Your task to perform on an android device: View the shopping cart on walmart. Search for jbl charge 4 on walmart, select the first entry, add it to the cart, then select checkout. Image 0: 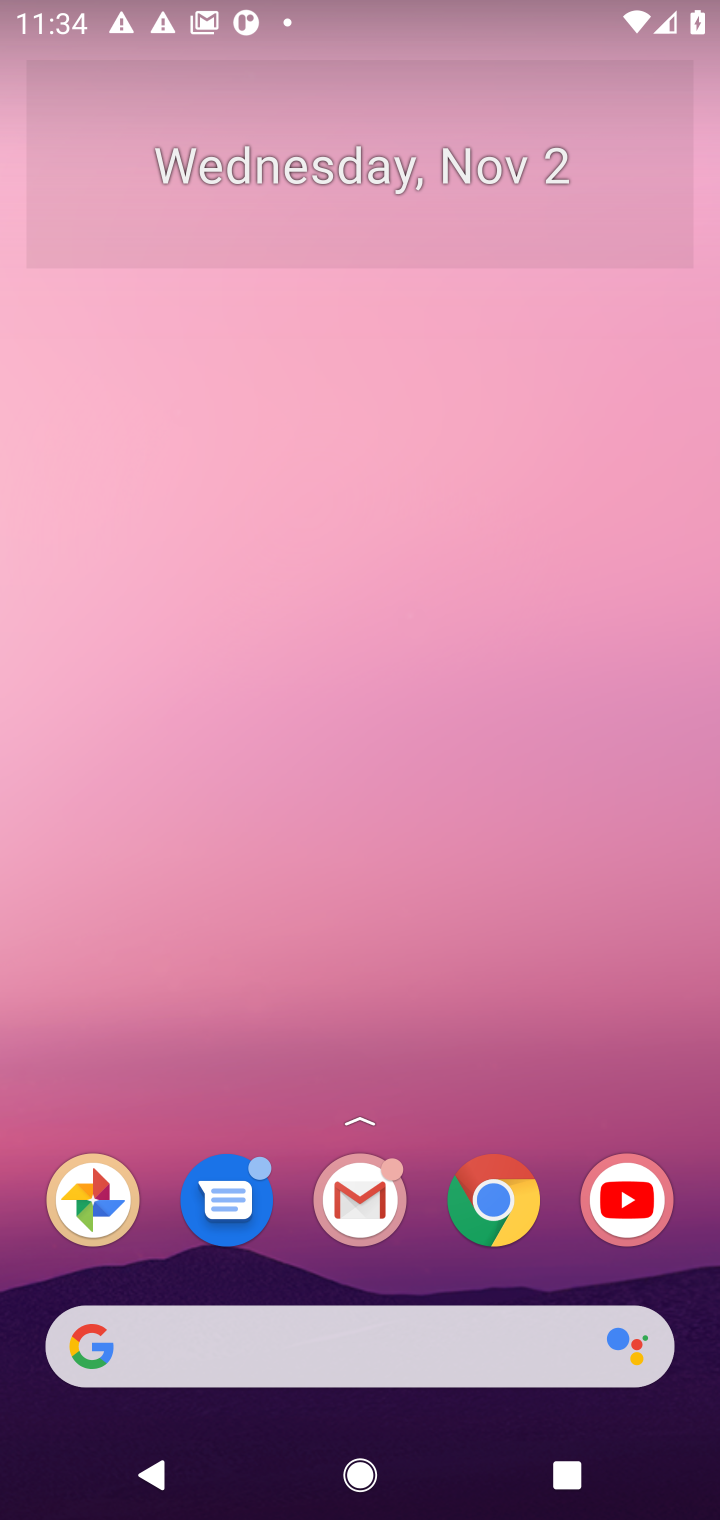
Step 0: click (513, 1198)
Your task to perform on an android device: View the shopping cart on walmart. Search for jbl charge 4 on walmart, select the first entry, add it to the cart, then select checkout. Image 1: 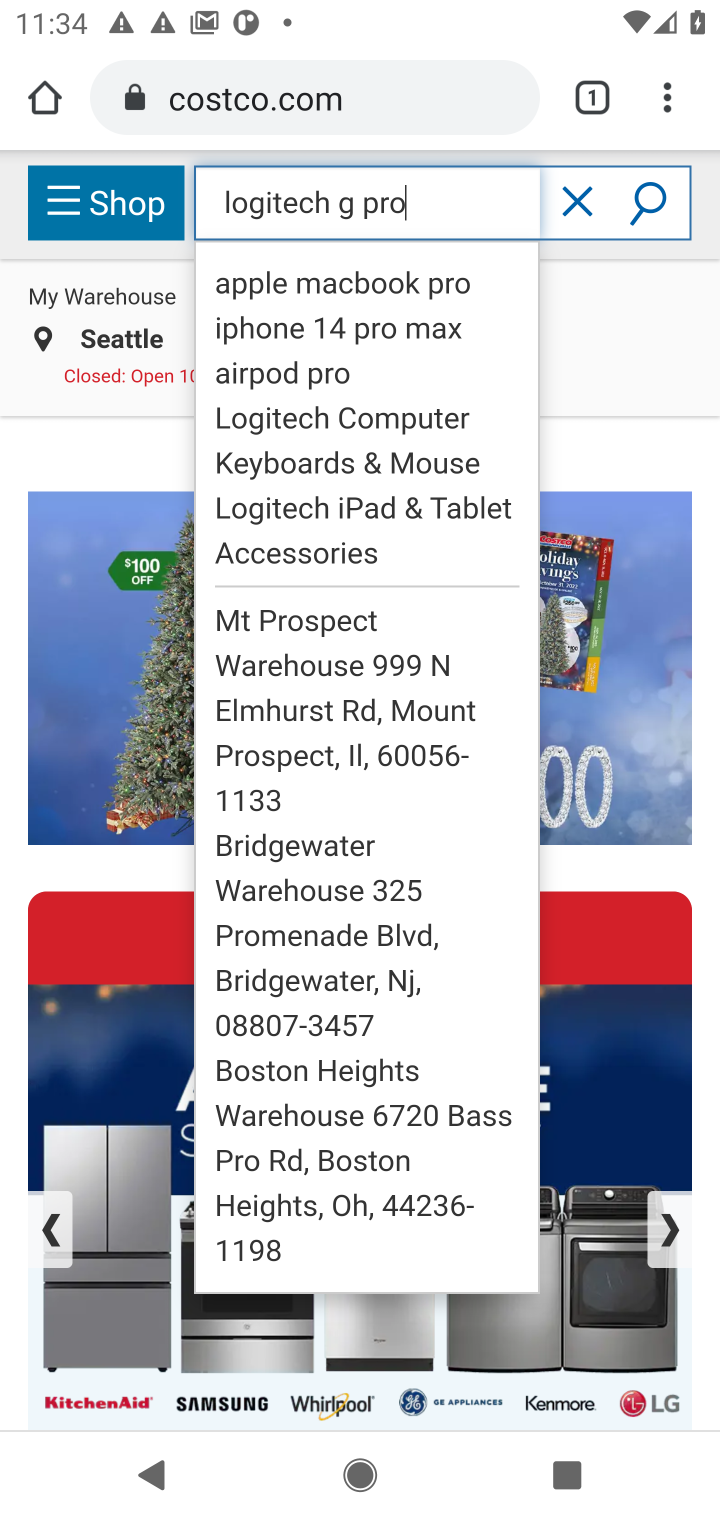
Step 1: click (459, 105)
Your task to perform on an android device: View the shopping cart on walmart. Search for jbl charge 4 on walmart, select the first entry, add it to the cart, then select checkout. Image 2: 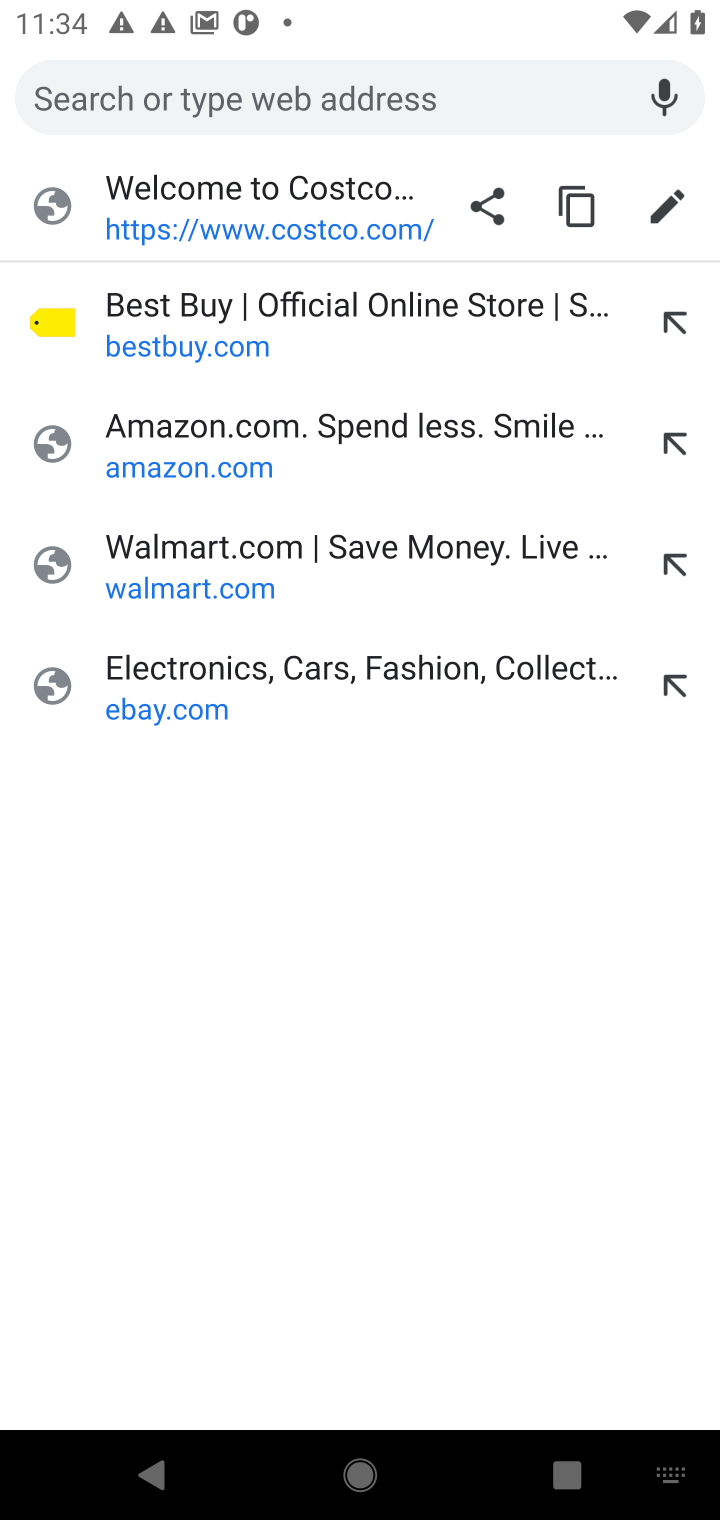
Step 2: click (480, 74)
Your task to perform on an android device: View the shopping cart on walmart. Search for jbl charge 4 on walmart, select the first entry, add it to the cart, then select checkout. Image 3: 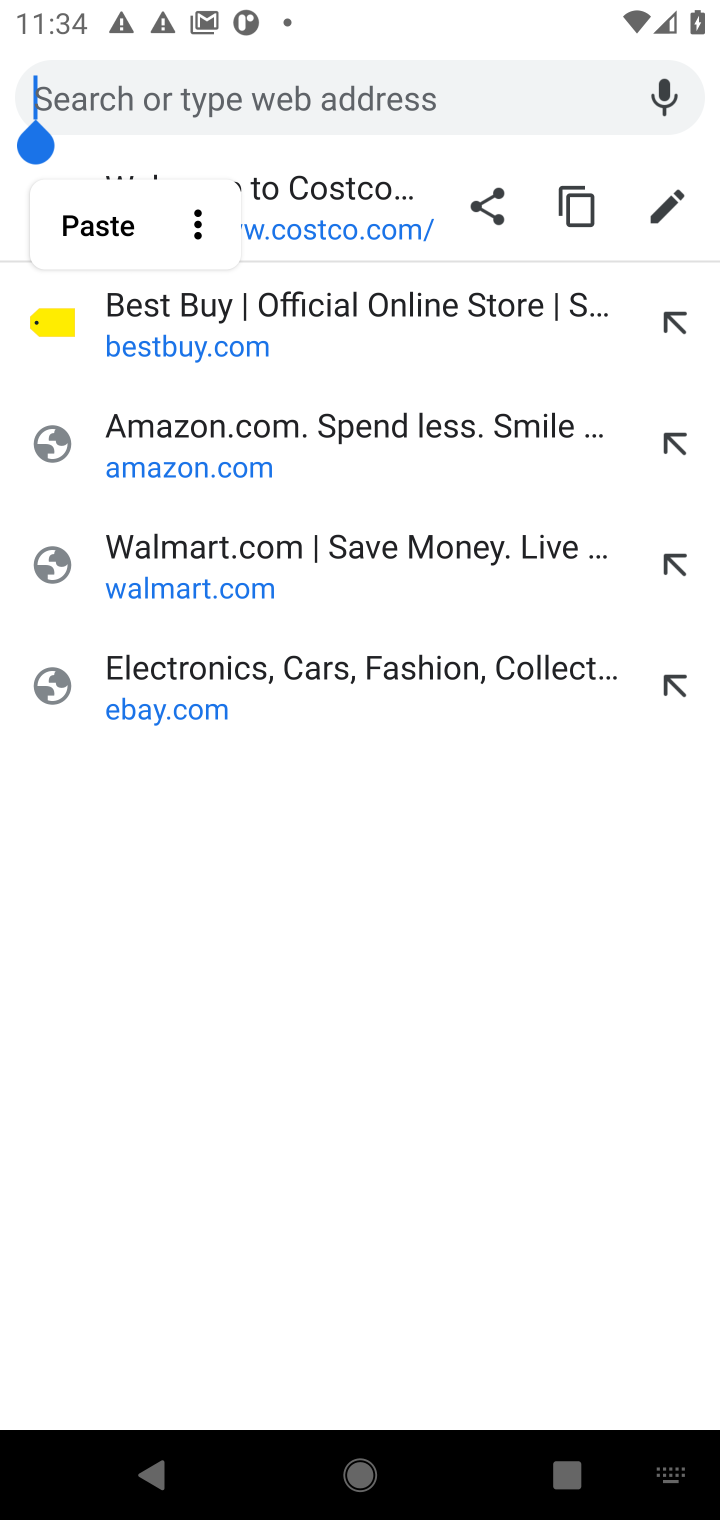
Step 3: click (227, 538)
Your task to perform on an android device: View the shopping cart on walmart. Search for jbl charge 4 on walmart, select the first entry, add it to the cart, then select checkout. Image 4: 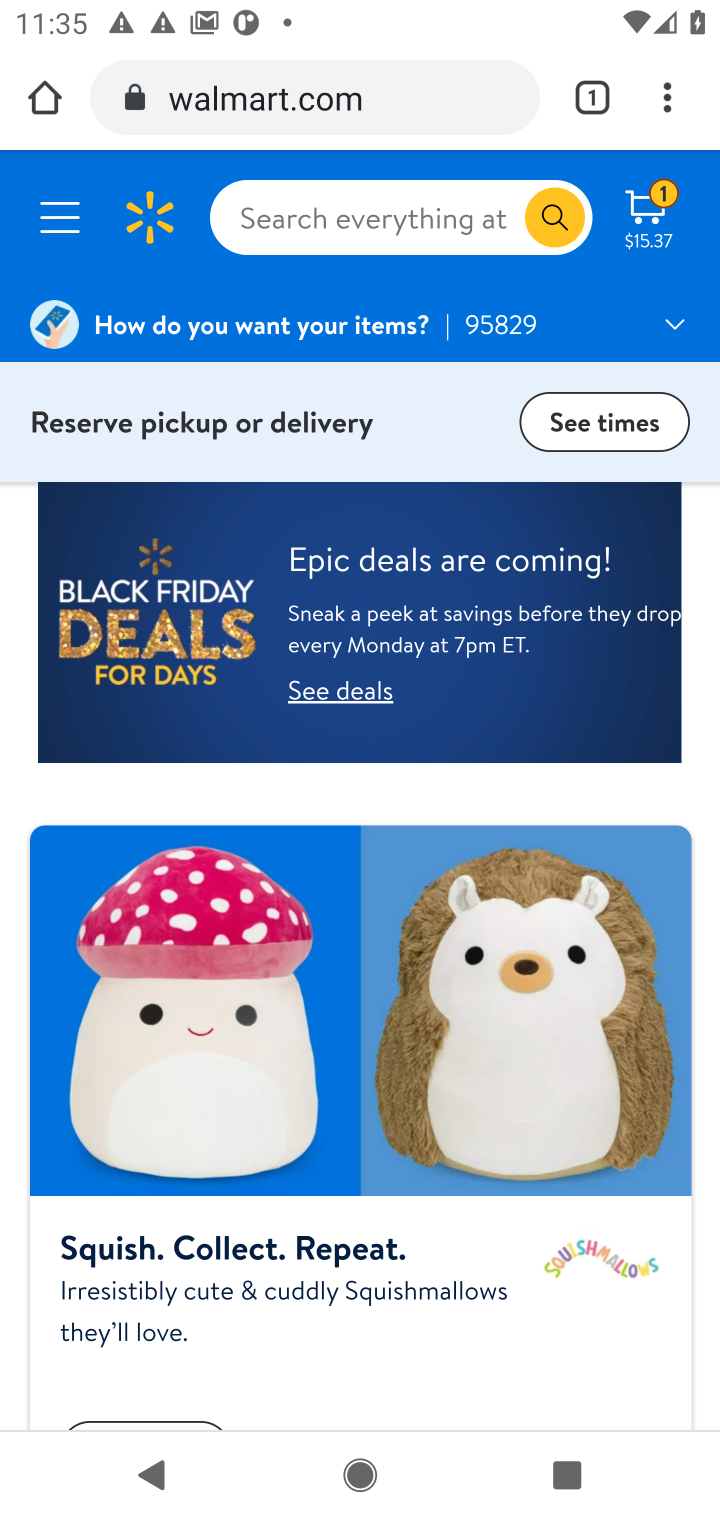
Step 4: click (342, 203)
Your task to perform on an android device: View the shopping cart on walmart. Search for jbl charge 4 on walmart, select the first entry, add it to the cart, then select checkout. Image 5: 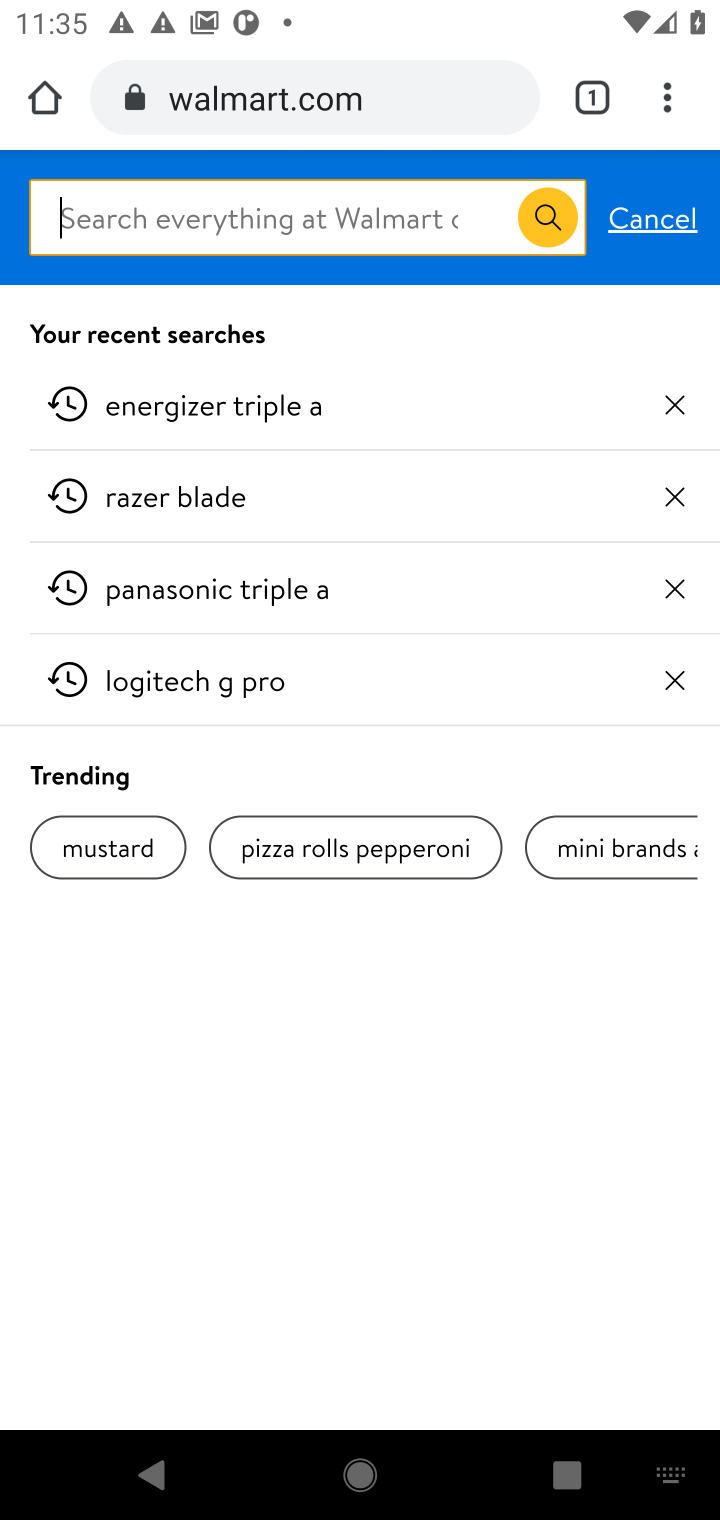
Step 5: type "walmart"
Your task to perform on an android device: View the shopping cart on walmart. Search for jbl charge 4 on walmart, select the first entry, add it to the cart, then select checkout. Image 6: 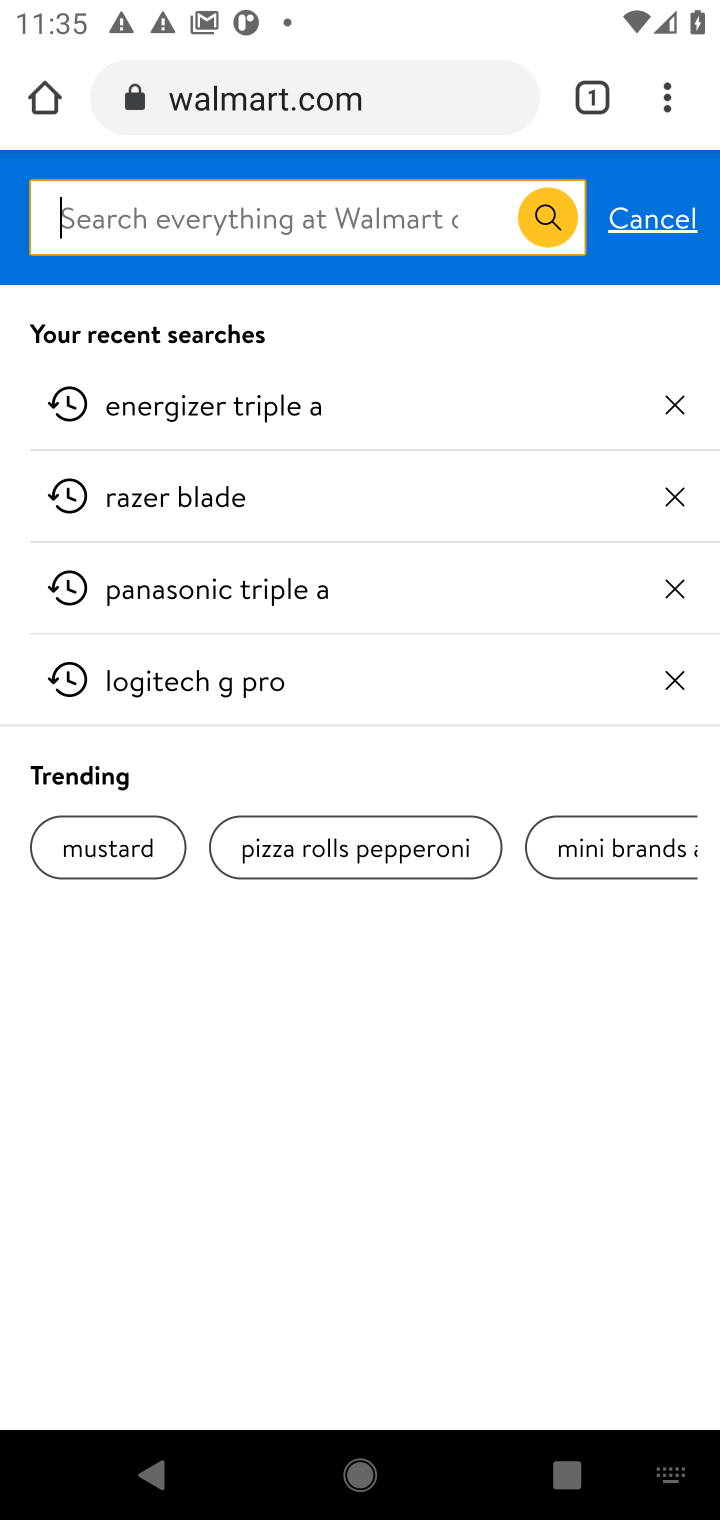
Step 6: click (666, 223)
Your task to perform on an android device: View the shopping cart on walmart. Search for jbl charge 4 on walmart, select the first entry, add it to the cart, then select checkout. Image 7: 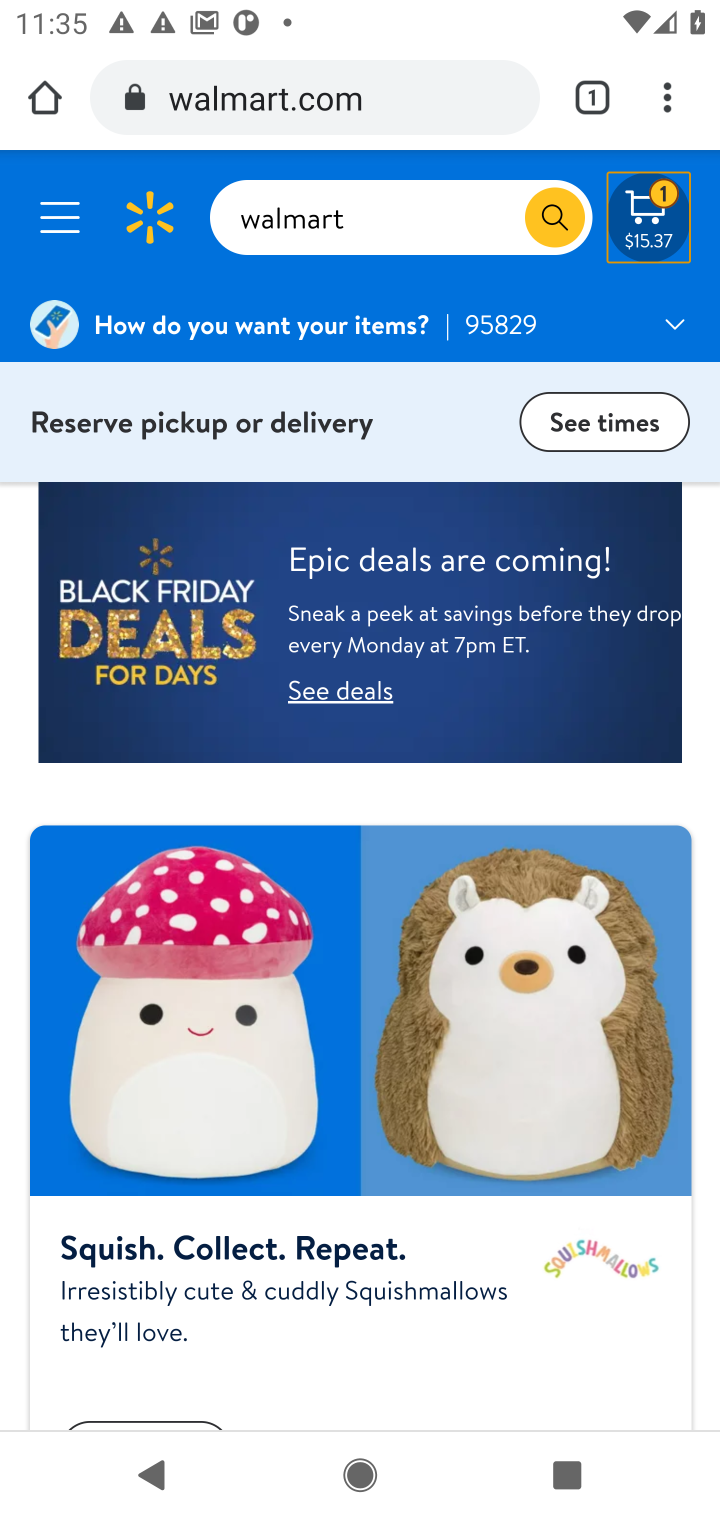
Step 7: click (666, 223)
Your task to perform on an android device: View the shopping cart on walmart. Search for jbl charge 4 on walmart, select the first entry, add it to the cart, then select checkout. Image 8: 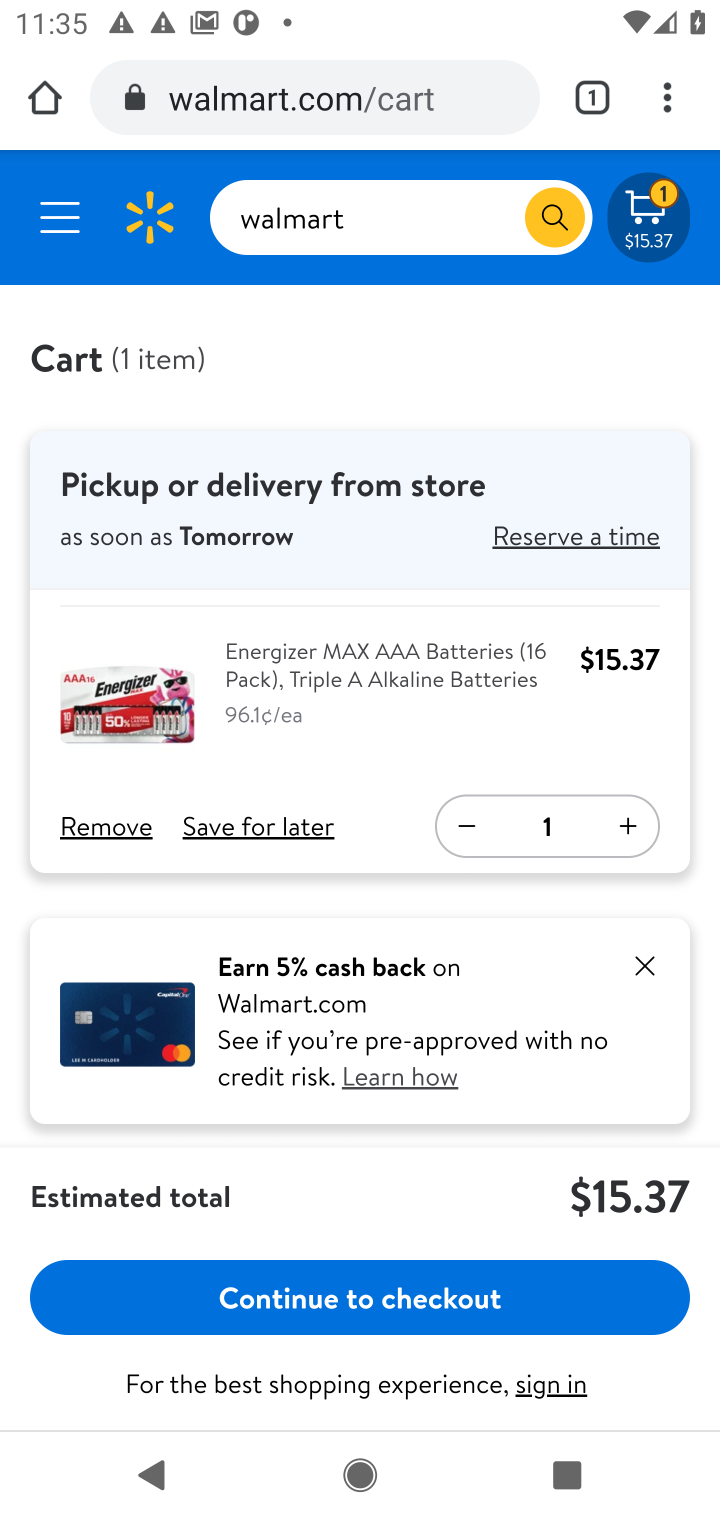
Step 8: click (540, 216)
Your task to perform on an android device: View the shopping cart on walmart. Search for jbl charge 4 on walmart, select the first entry, add it to the cart, then select checkout. Image 9: 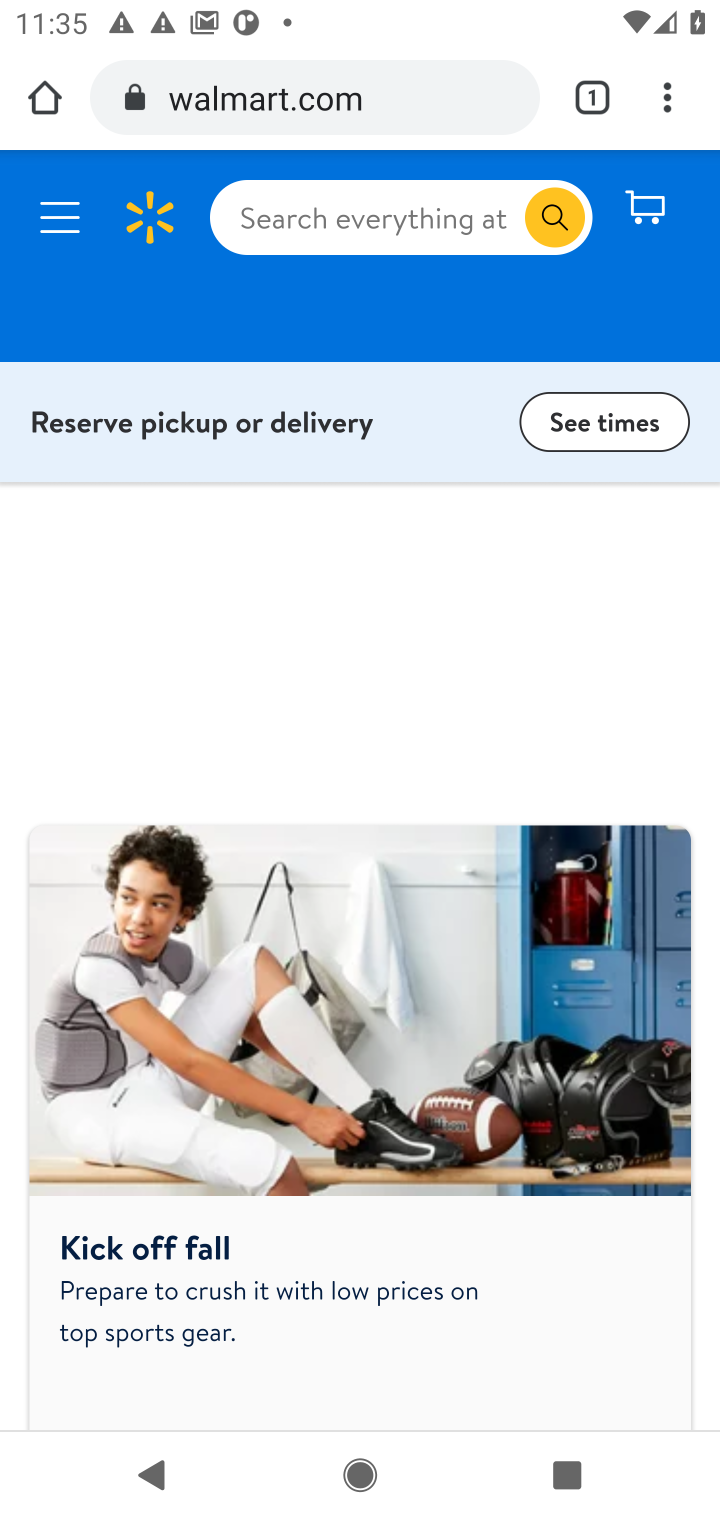
Step 9: click (386, 215)
Your task to perform on an android device: View the shopping cart on walmart. Search for jbl charge 4 on walmart, select the first entry, add it to the cart, then select checkout. Image 10: 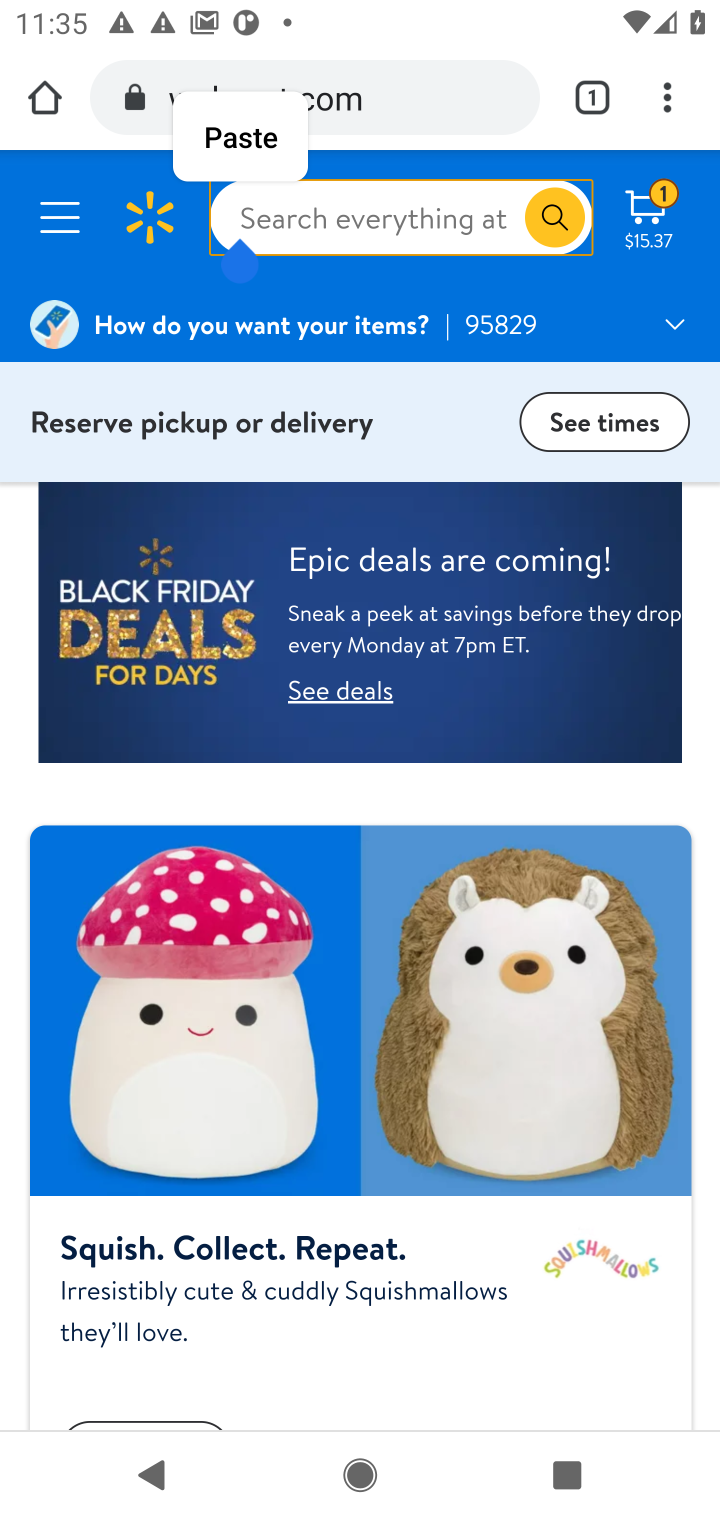
Step 10: press enter
Your task to perform on an android device: View the shopping cart on walmart. Search for jbl charge 4 on walmart, select the first entry, add it to the cart, then select checkout. Image 11: 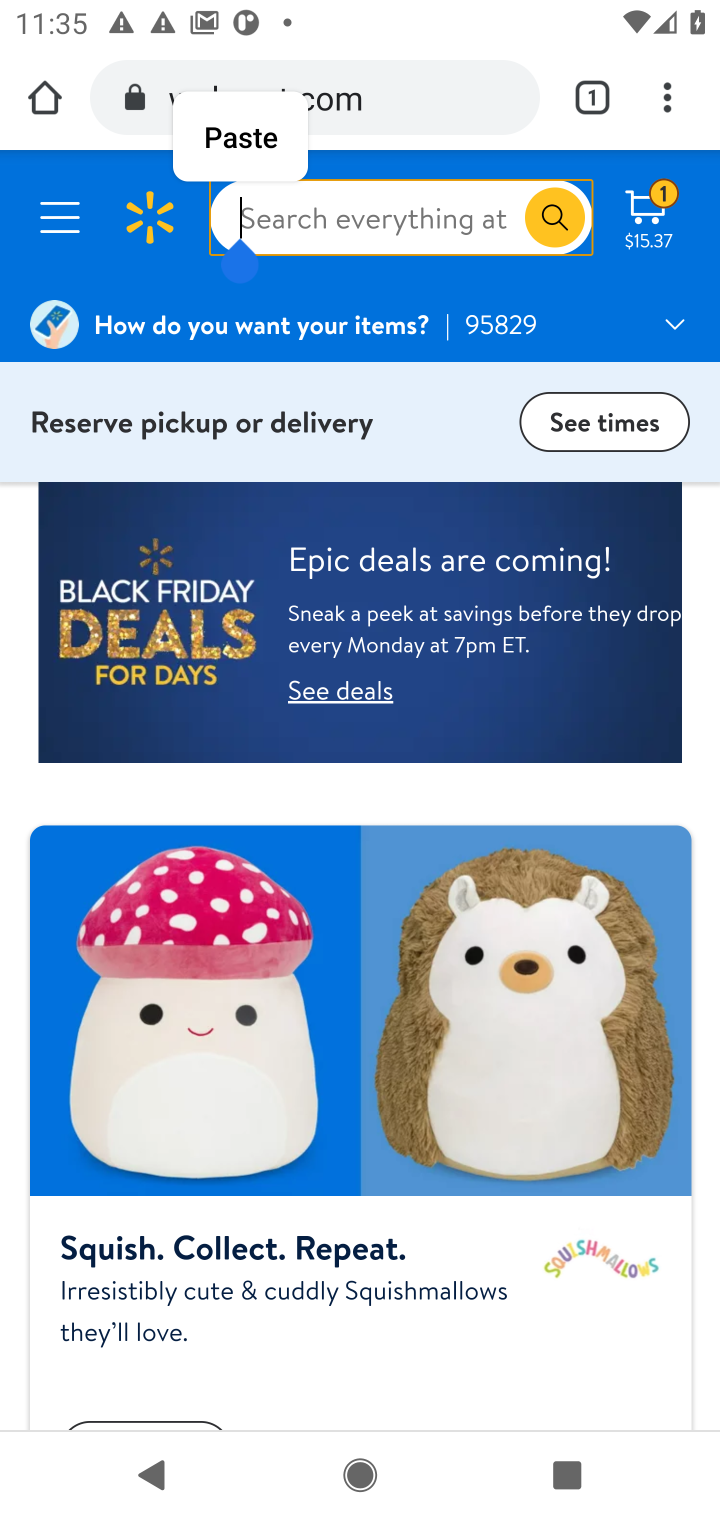
Step 11: type "jbl charge 4"
Your task to perform on an android device: View the shopping cart on walmart. Search for jbl charge 4 on walmart, select the first entry, add it to the cart, then select checkout. Image 12: 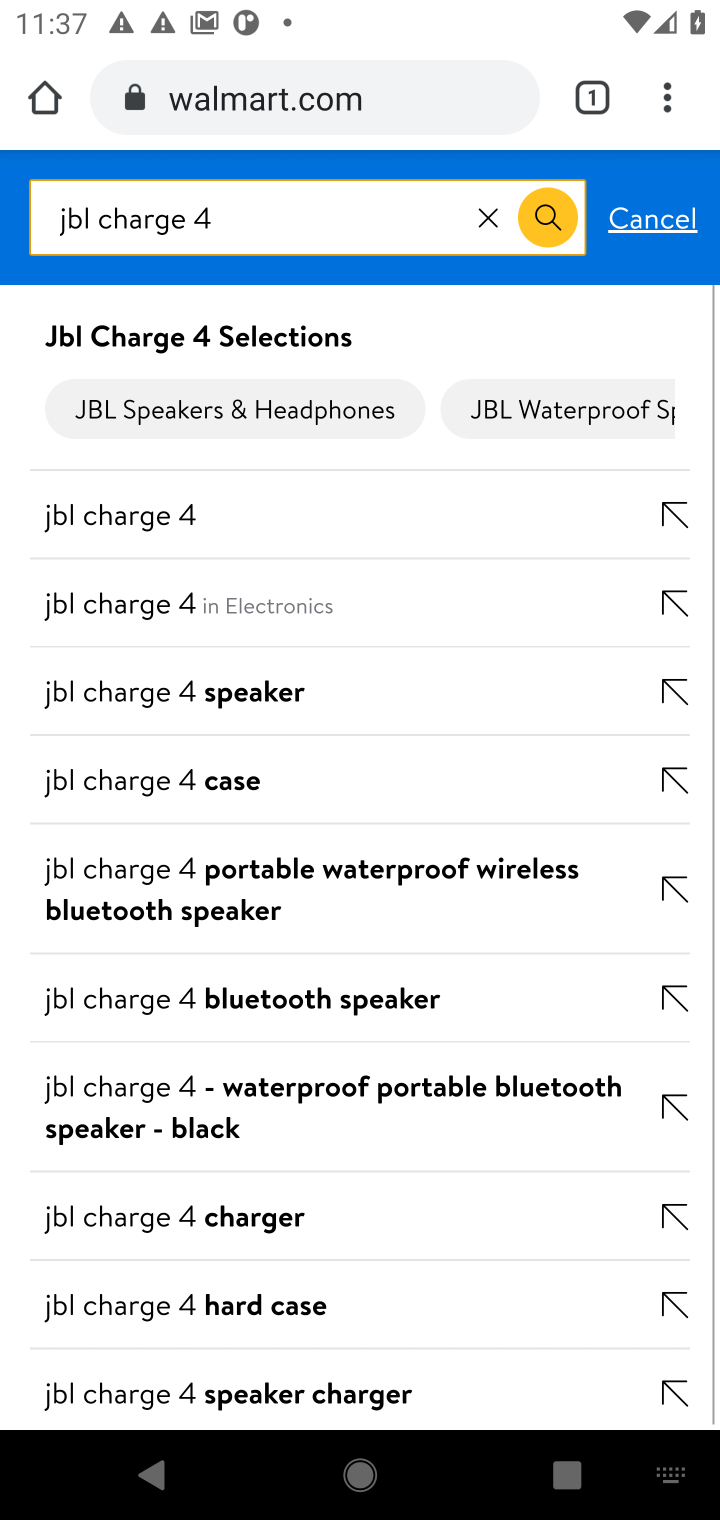
Step 12: click (152, 516)
Your task to perform on an android device: View the shopping cart on walmart. Search for jbl charge 4 on walmart, select the first entry, add it to the cart, then select checkout. Image 13: 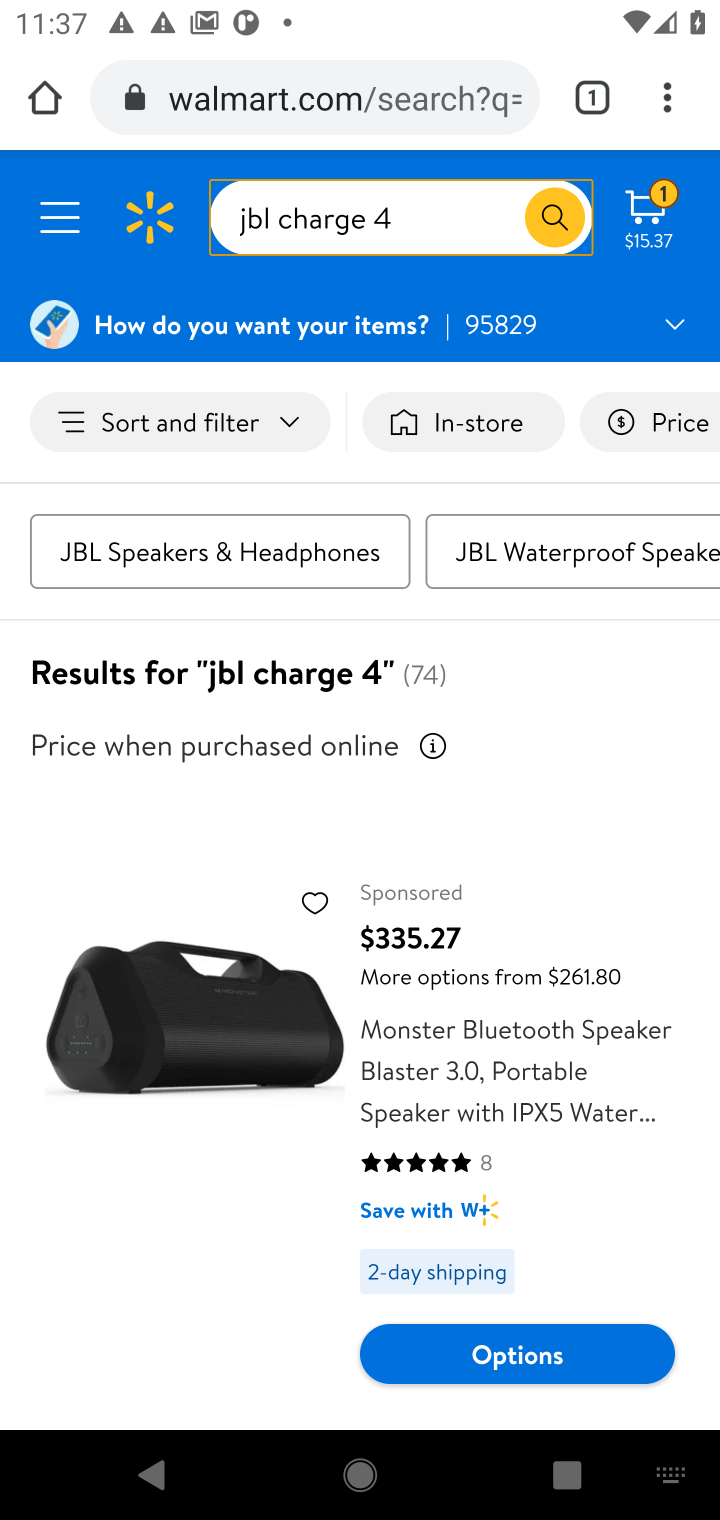
Step 13: drag from (584, 1113) to (531, 903)
Your task to perform on an android device: View the shopping cart on walmart. Search for jbl charge 4 on walmart, select the first entry, add it to the cart, then select checkout. Image 14: 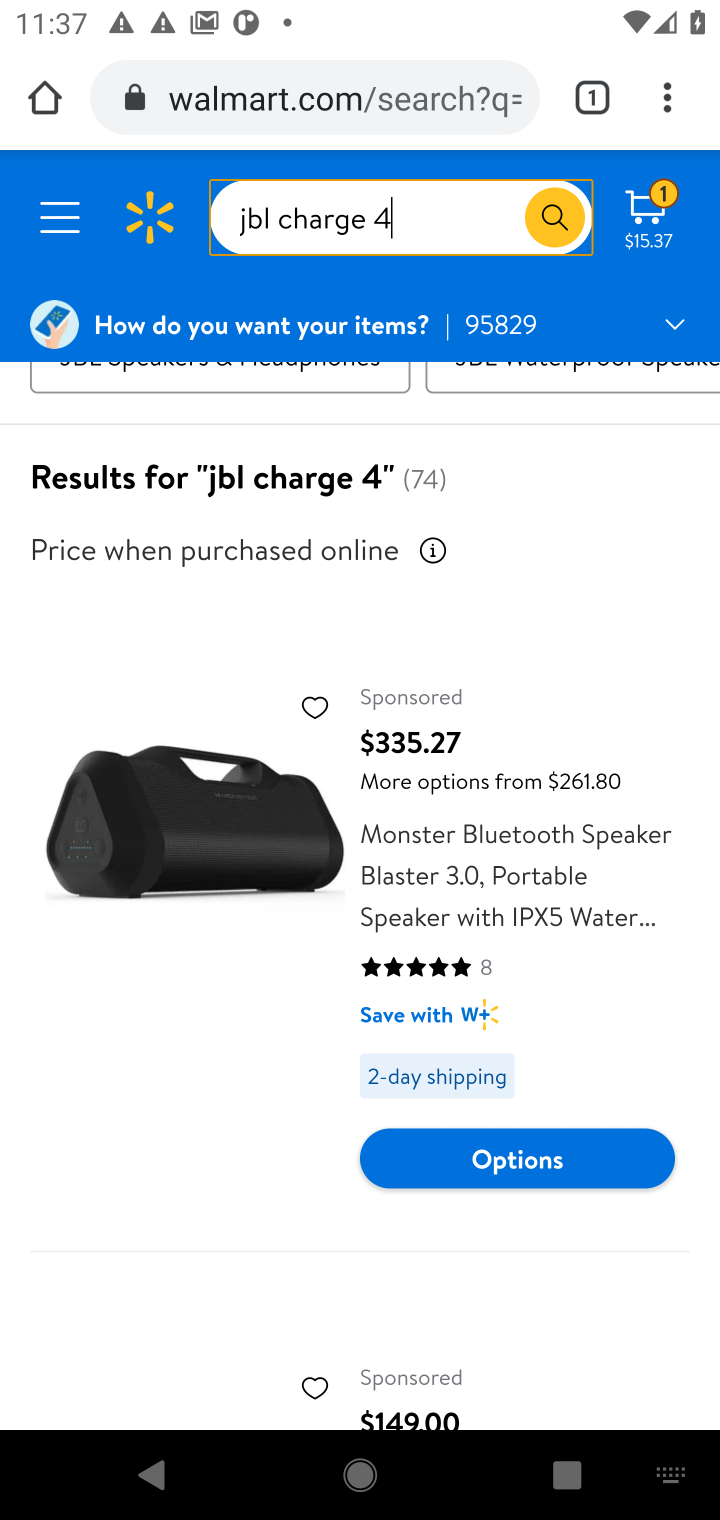
Step 14: drag from (560, 825) to (645, 1219)
Your task to perform on an android device: View the shopping cart on walmart. Search for jbl charge 4 on walmart, select the first entry, add it to the cart, then select checkout. Image 15: 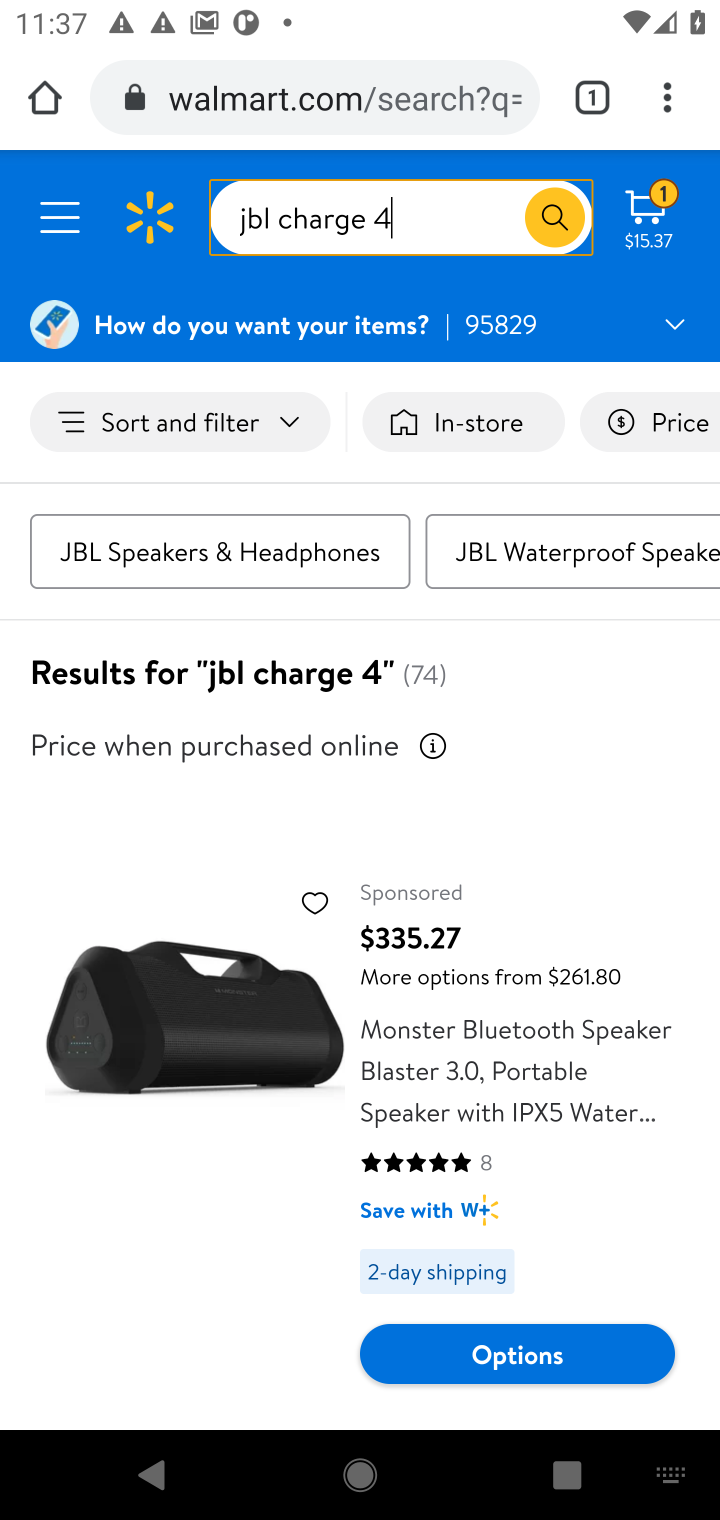
Step 15: drag from (573, 1078) to (545, 523)
Your task to perform on an android device: View the shopping cart on walmart. Search for jbl charge 4 on walmart, select the first entry, add it to the cart, then select checkout. Image 16: 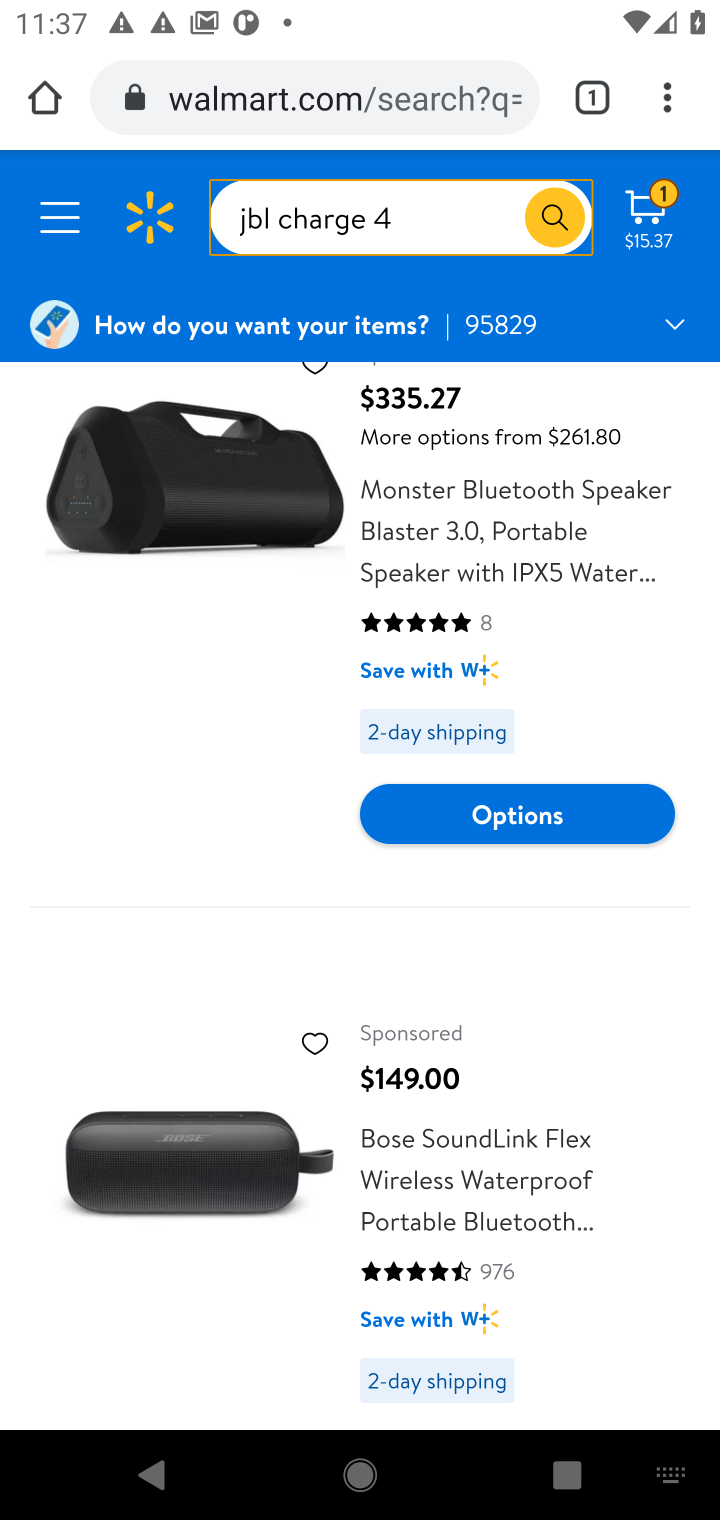
Step 16: drag from (573, 1246) to (519, 619)
Your task to perform on an android device: View the shopping cart on walmart. Search for jbl charge 4 on walmart, select the first entry, add it to the cart, then select checkout. Image 17: 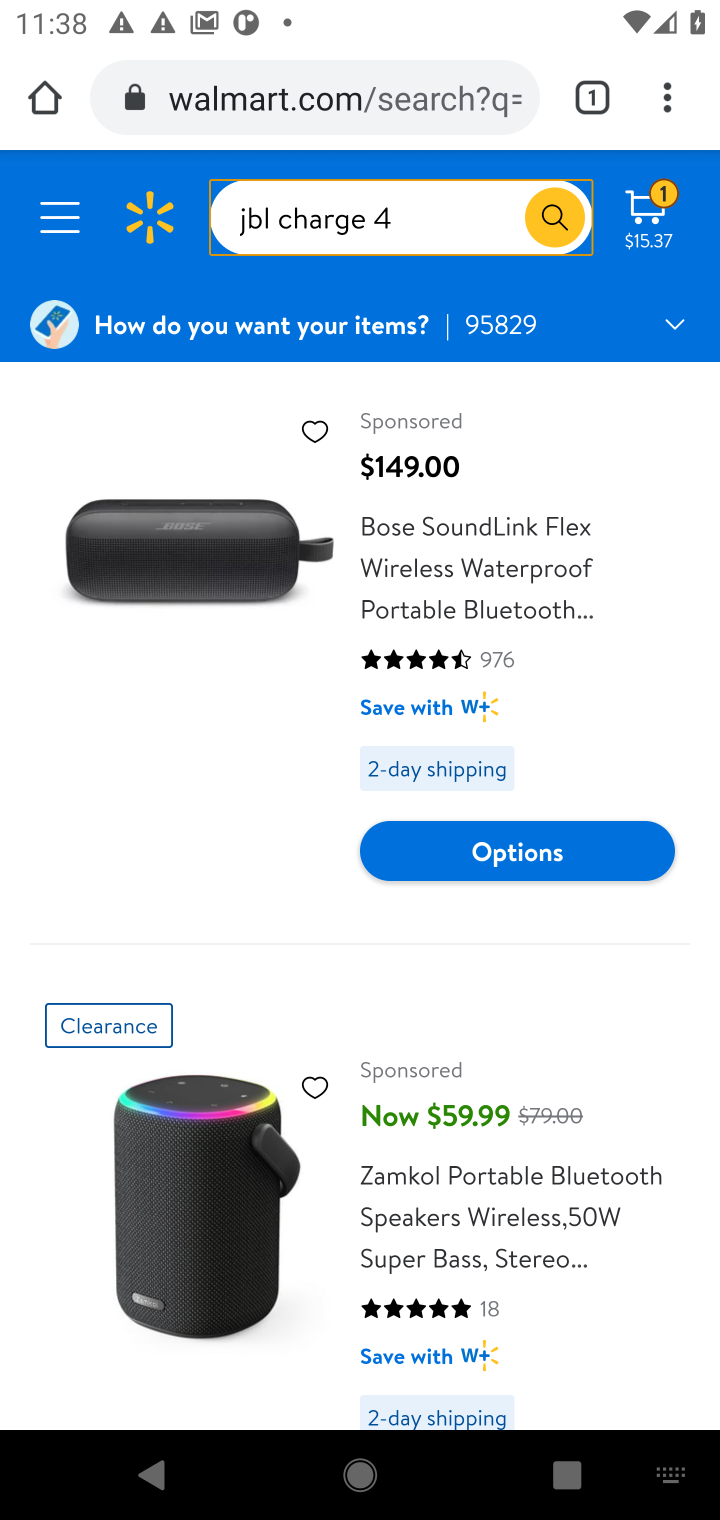
Step 17: drag from (615, 1320) to (647, 639)
Your task to perform on an android device: View the shopping cart on walmart. Search for jbl charge 4 on walmart, select the first entry, add it to the cart, then select checkout. Image 18: 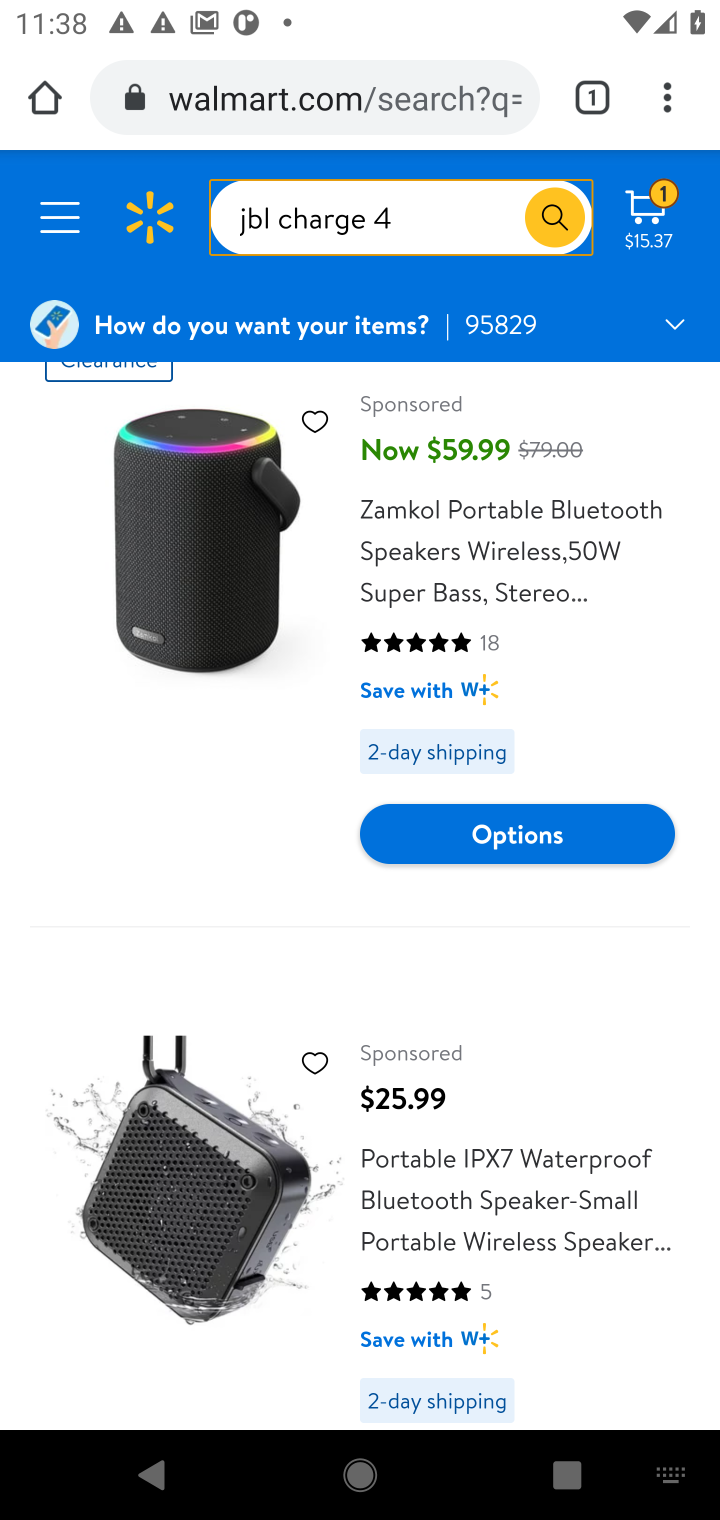
Step 18: drag from (581, 1150) to (567, 597)
Your task to perform on an android device: View the shopping cart on walmart. Search for jbl charge 4 on walmart, select the first entry, add it to the cart, then select checkout. Image 19: 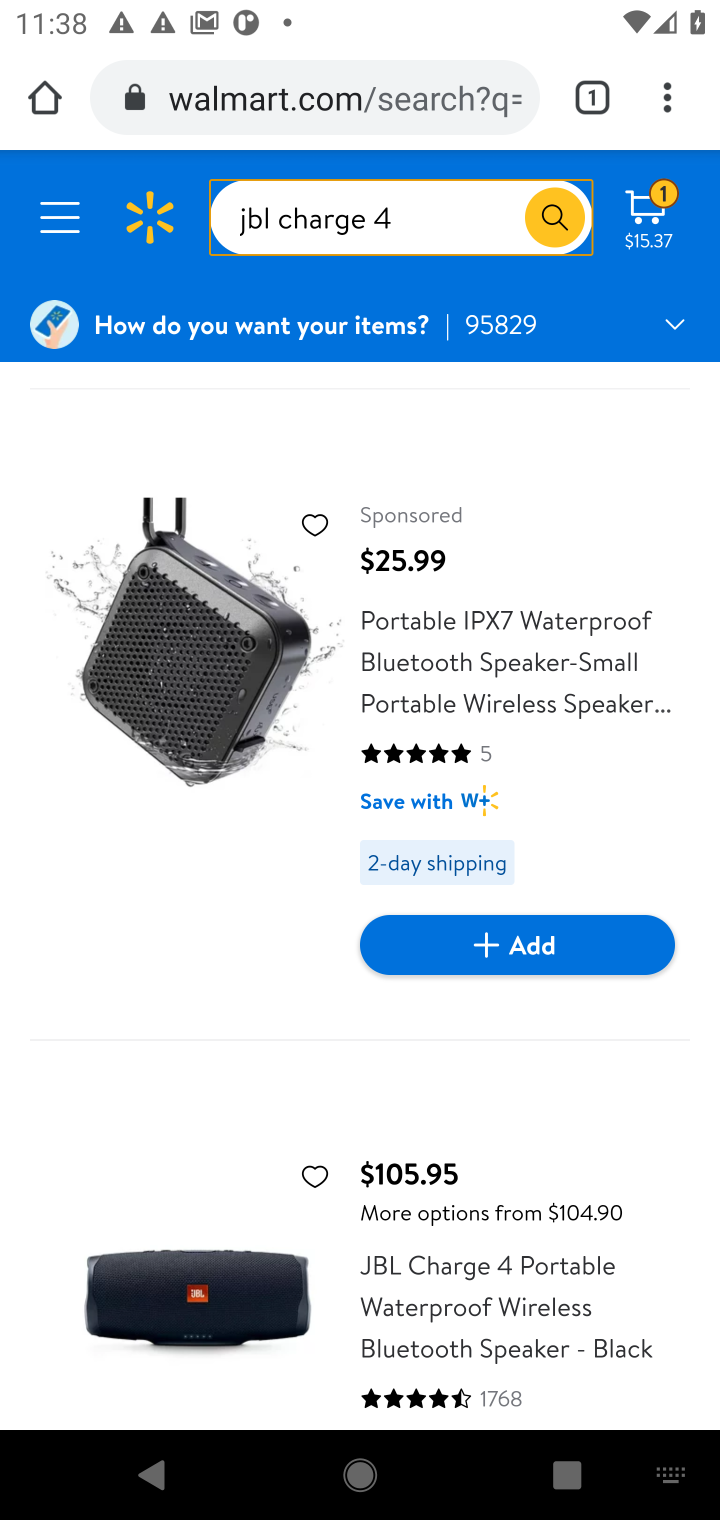
Step 19: click (268, 1259)
Your task to perform on an android device: View the shopping cart on walmart. Search for jbl charge 4 on walmart, select the first entry, add it to the cart, then select checkout. Image 20: 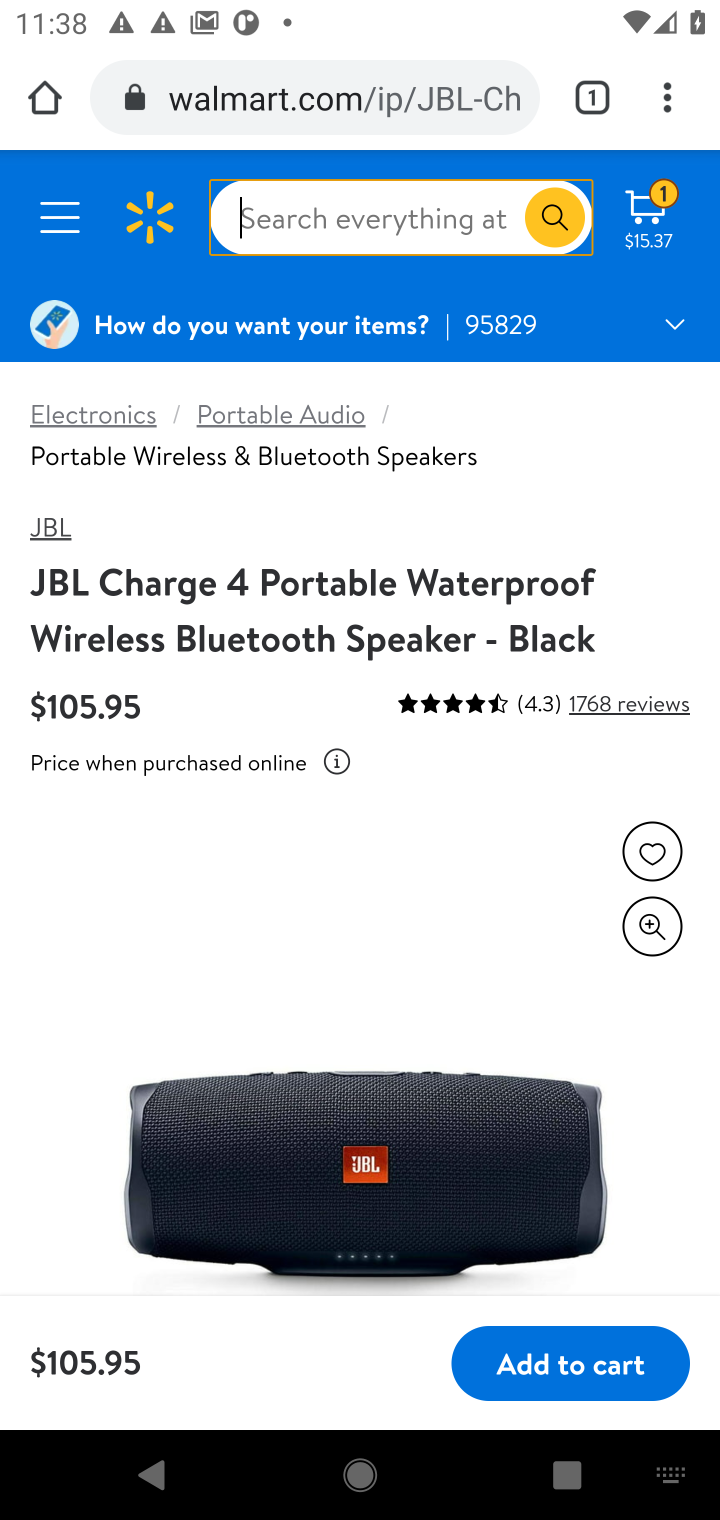
Step 20: drag from (512, 975) to (486, 816)
Your task to perform on an android device: View the shopping cart on walmart. Search for jbl charge 4 on walmart, select the first entry, add it to the cart, then select checkout. Image 21: 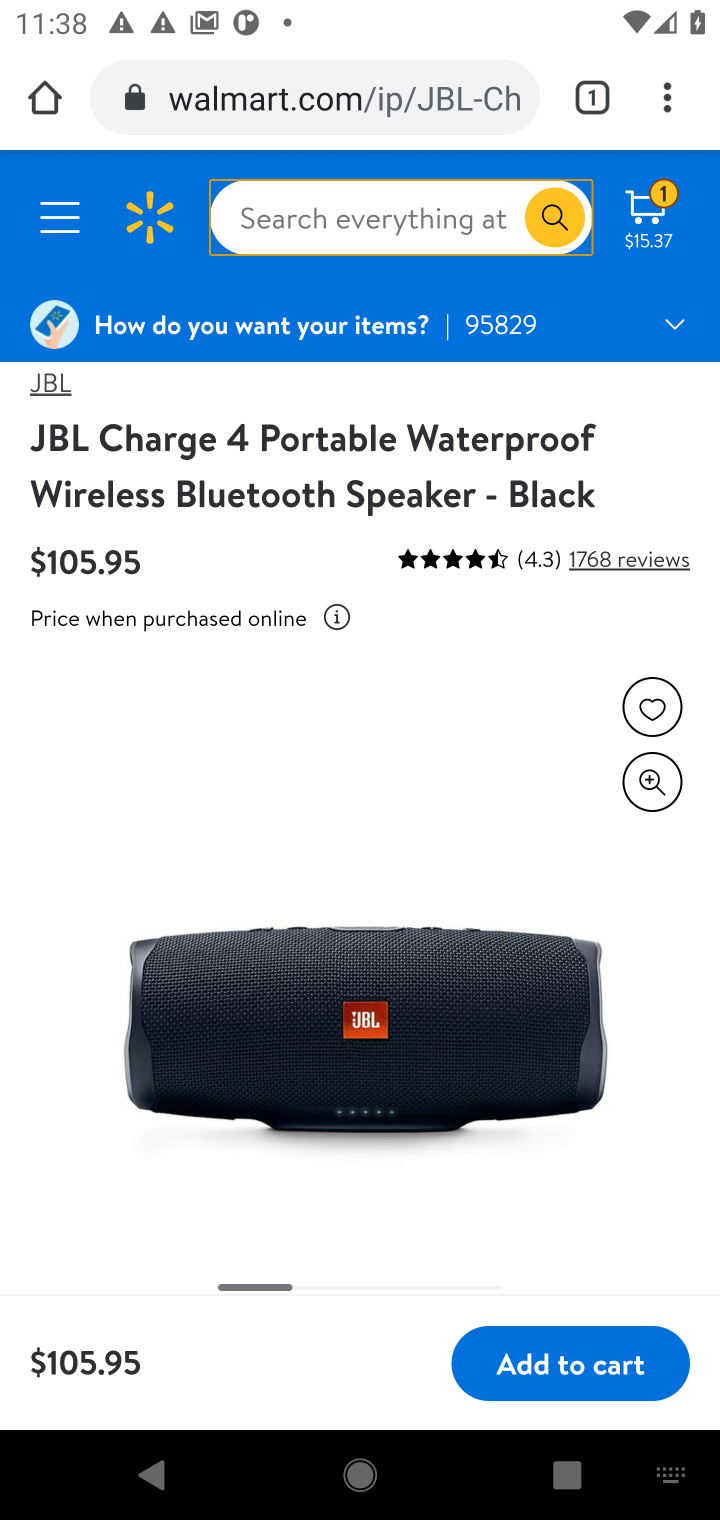
Step 21: click (601, 1358)
Your task to perform on an android device: View the shopping cart on walmart. Search for jbl charge 4 on walmart, select the first entry, add it to the cart, then select checkout. Image 22: 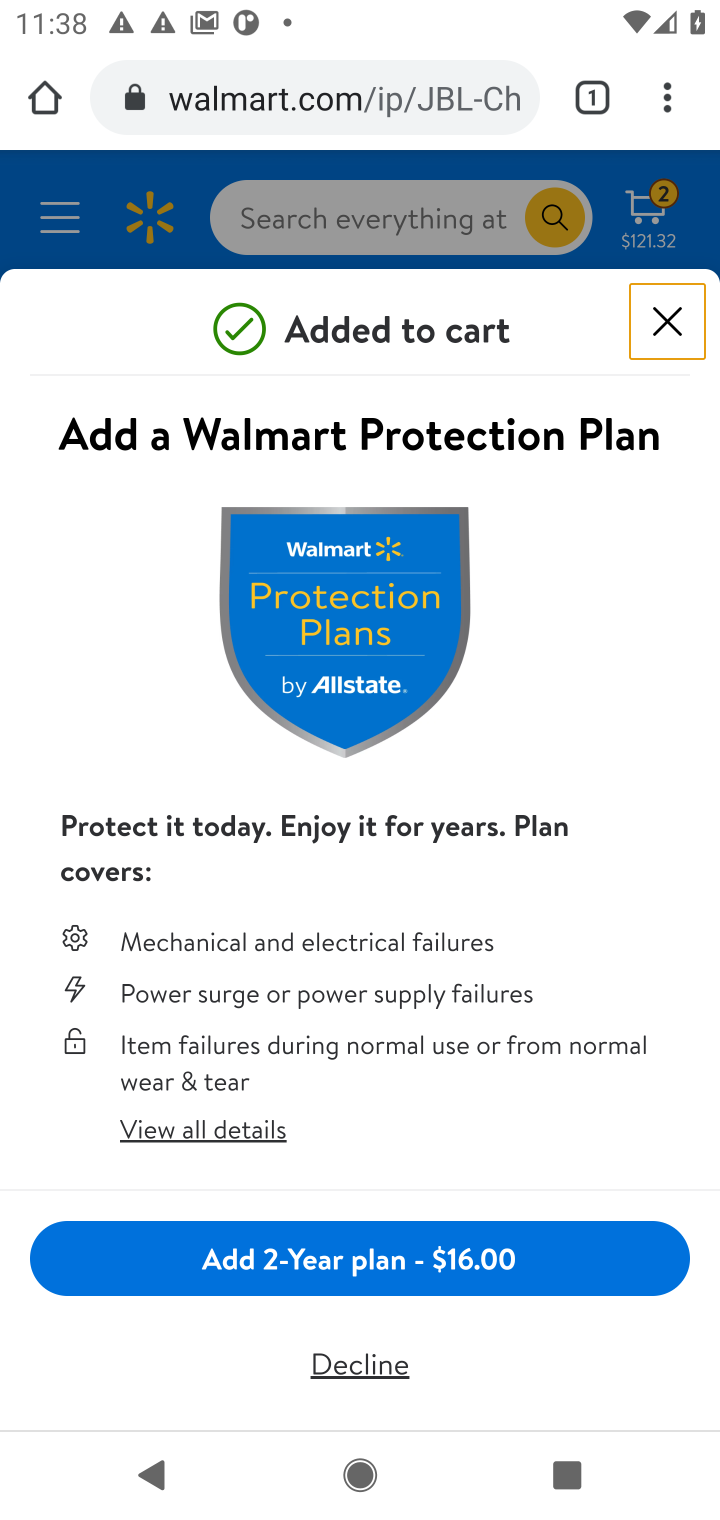
Step 22: click (661, 307)
Your task to perform on an android device: View the shopping cart on walmart. Search for jbl charge 4 on walmart, select the first entry, add it to the cart, then select checkout. Image 23: 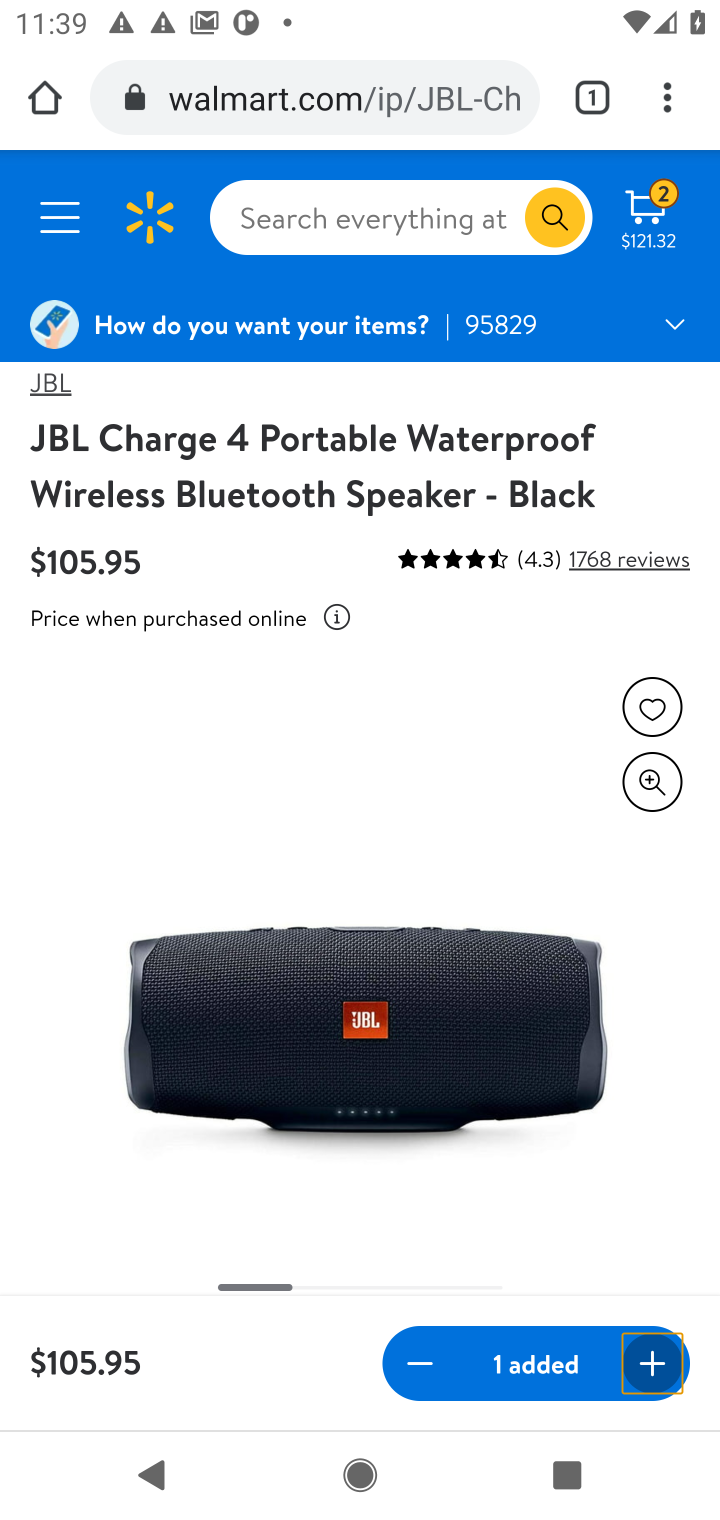
Step 23: drag from (456, 1166) to (510, 323)
Your task to perform on an android device: View the shopping cart on walmart. Search for jbl charge 4 on walmart, select the first entry, add it to the cart, then select checkout. Image 24: 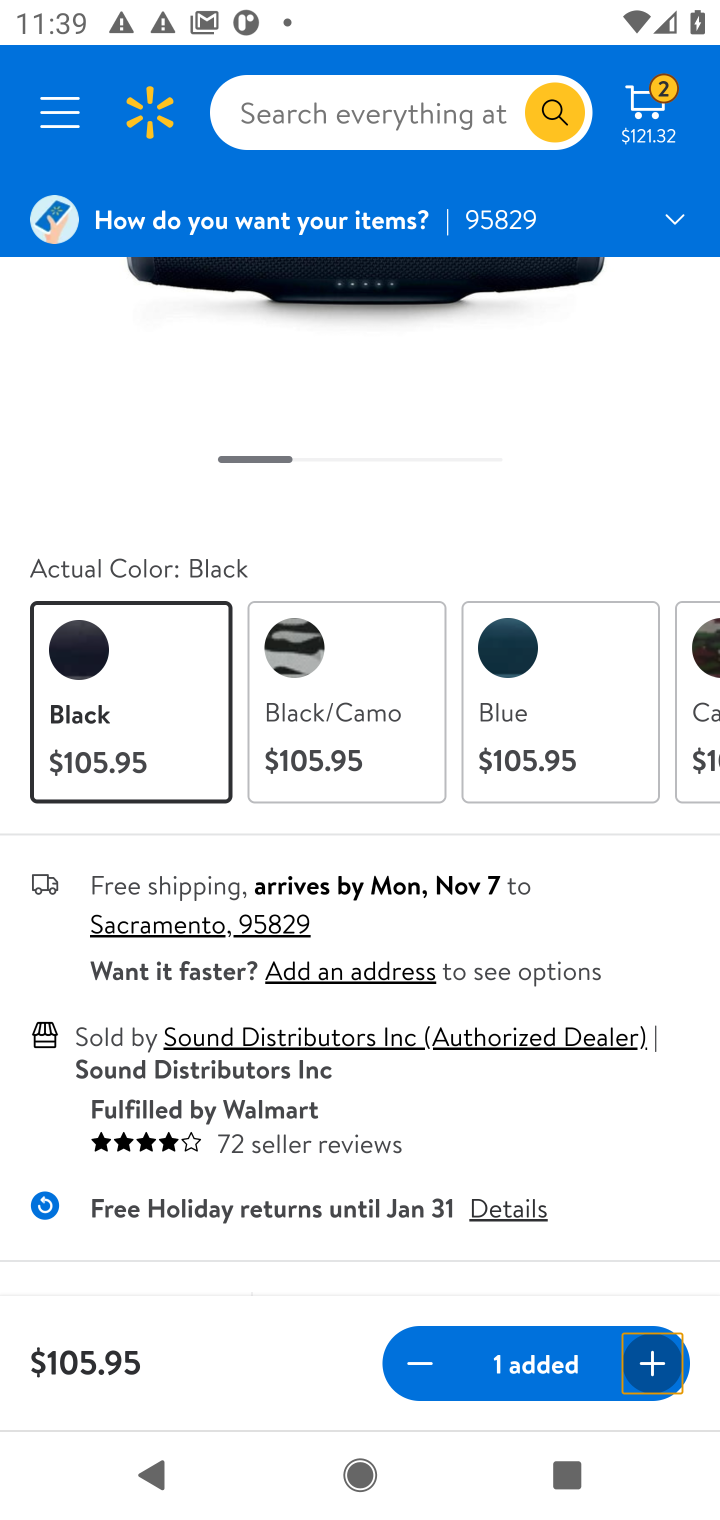
Step 24: drag from (550, 989) to (578, 429)
Your task to perform on an android device: View the shopping cart on walmart. Search for jbl charge 4 on walmart, select the first entry, add it to the cart, then select checkout. Image 25: 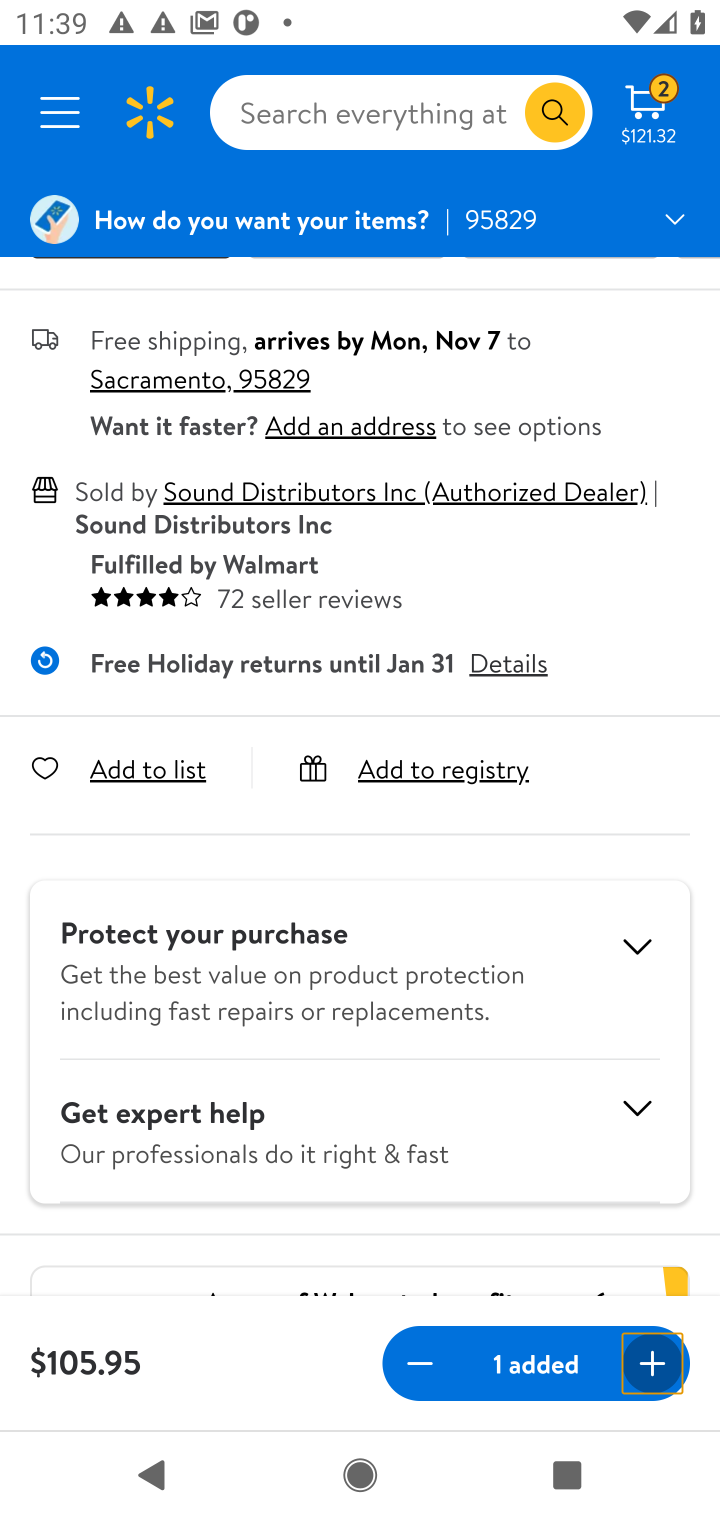
Step 25: drag from (430, 851) to (539, 337)
Your task to perform on an android device: View the shopping cart on walmart. Search for jbl charge 4 on walmart, select the first entry, add it to the cart, then select checkout. Image 26: 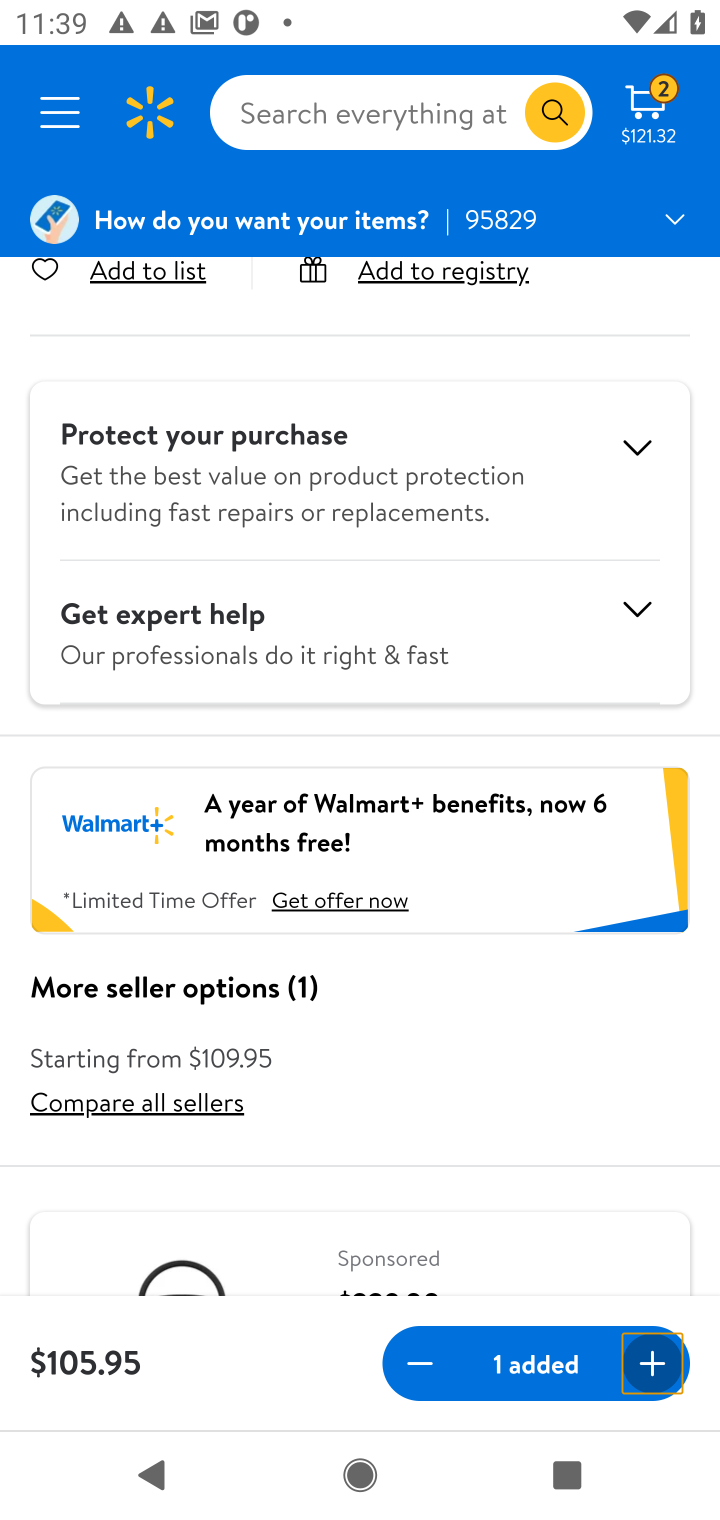
Step 26: drag from (540, 1094) to (636, 420)
Your task to perform on an android device: View the shopping cart on walmart. Search for jbl charge 4 on walmart, select the first entry, add it to the cart, then select checkout. Image 27: 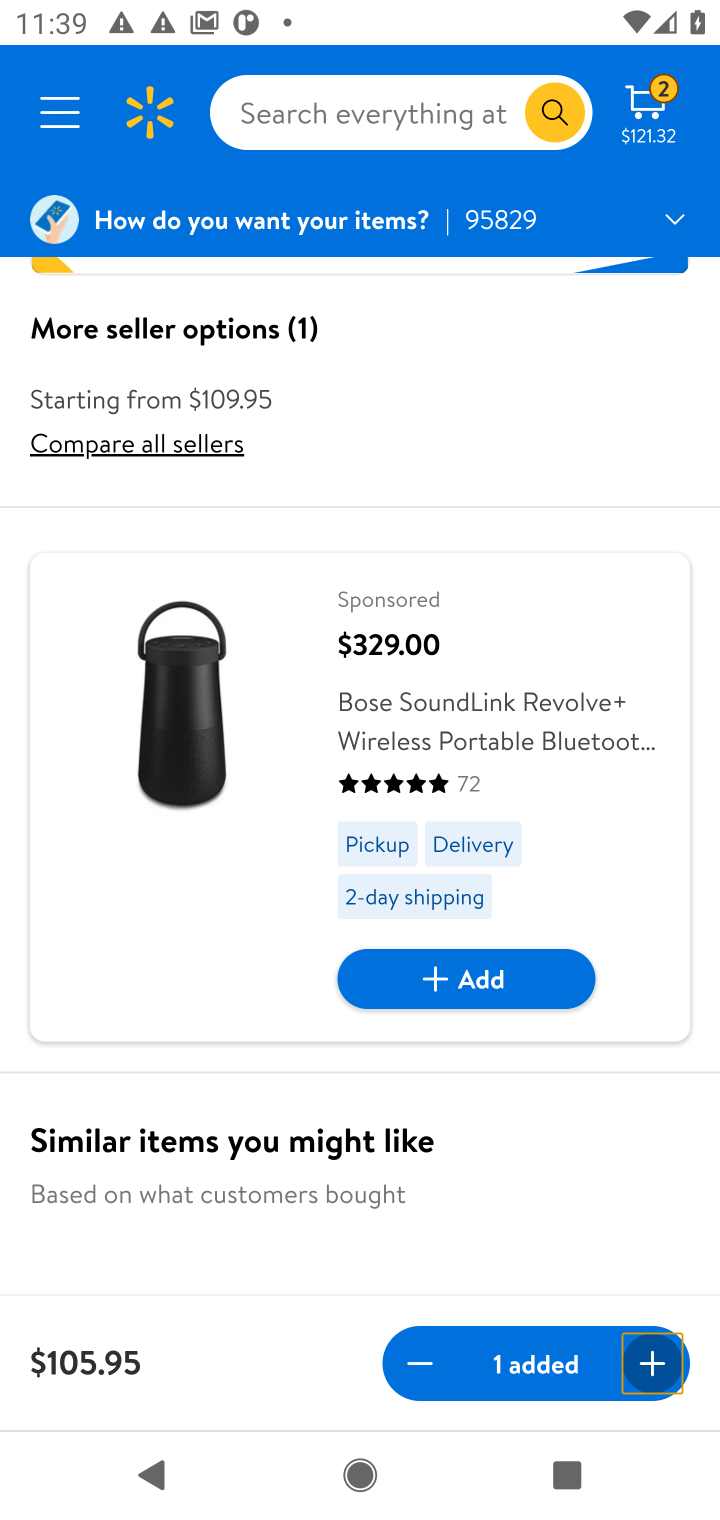
Step 27: drag from (519, 676) to (624, 1444)
Your task to perform on an android device: View the shopping cart on walmart. Search for jbl charge 4 on walmart, select the first entry, add it to the cart, then select checkout. Image 28: 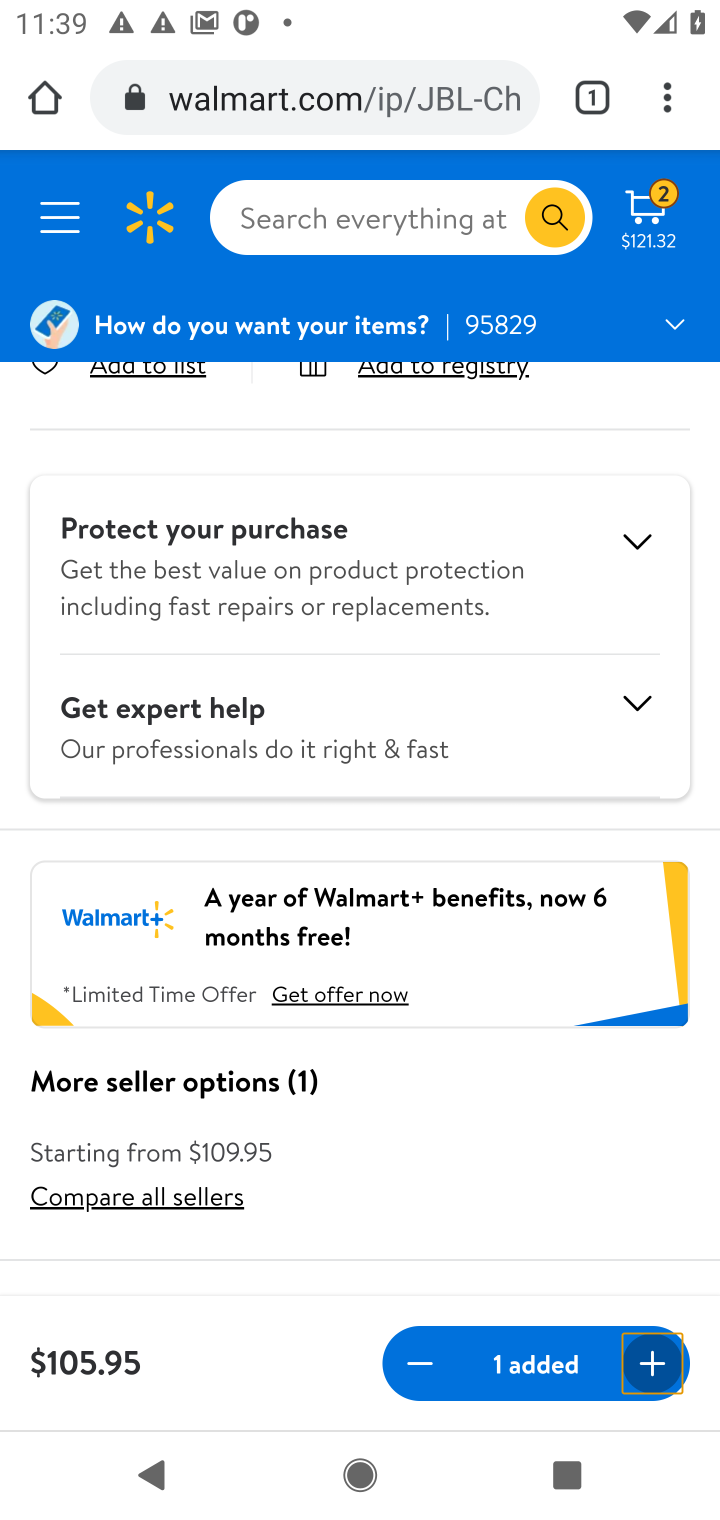
Step 28: click (648, 210)
Your task to perform on an android device: View the shopping cart on walmart. Search for jbl charge 4 on walmart, select the first entry, add it to the cart, then select checkout. Image 29: 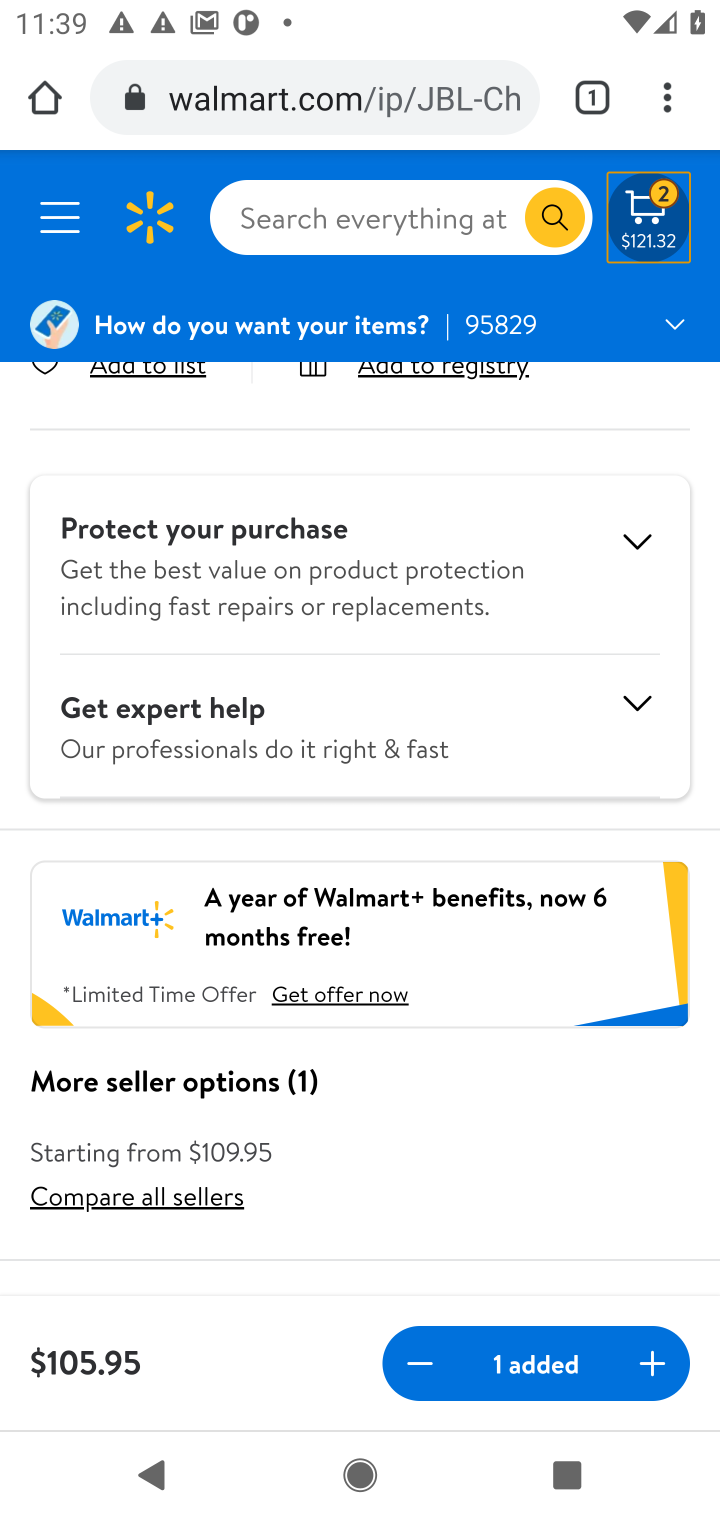
Step 29: click (664, 211)
Your task to perform on an android device: View the shopping cart on walmart. Search for jbl charge 4 on walmart, select the first entry, add it to the cart, then select checkout. Image 30: 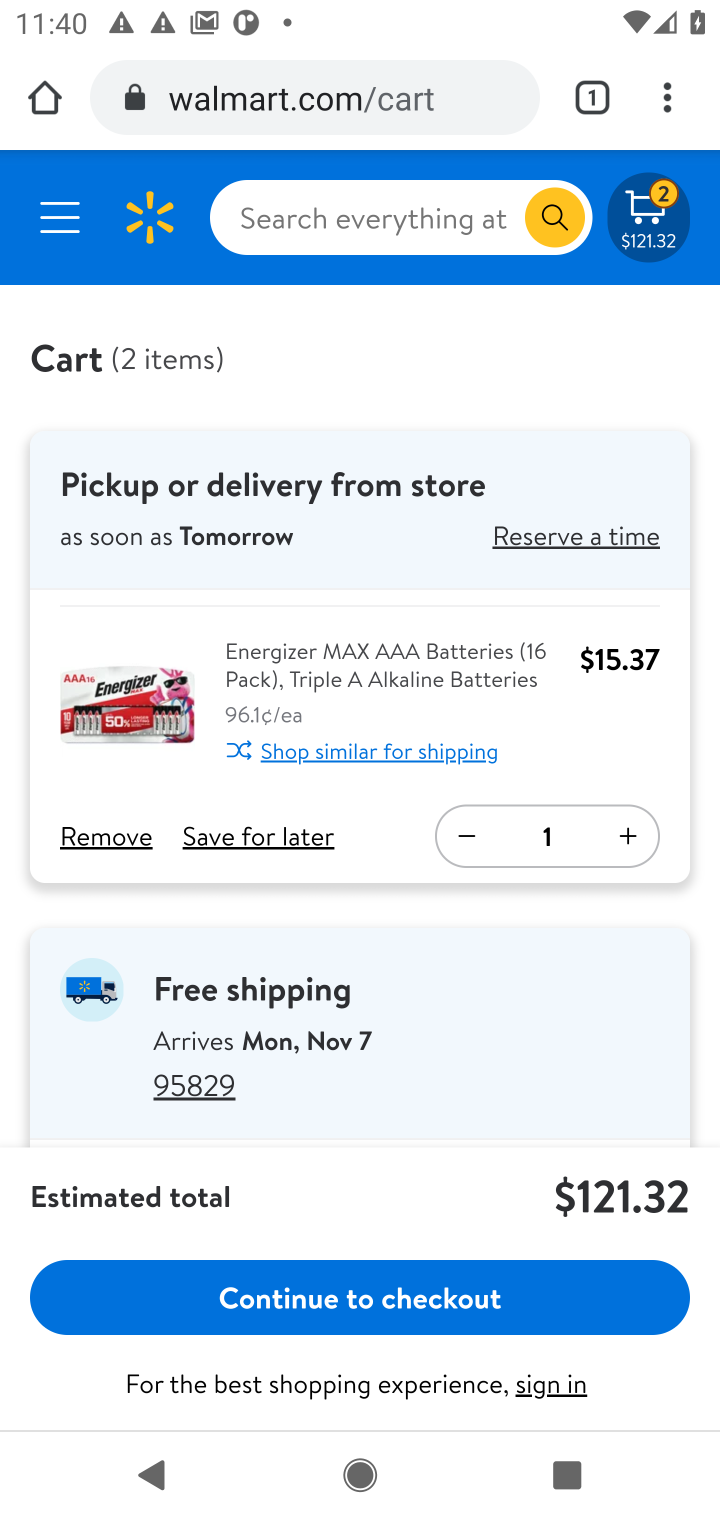
Step 30: click (462, 1304)
Your task to perform on an android device: View the shopping cart on walmart. Search for jbl charge 4 on walmart, select the first entry, add it to the cart, then select checkout. Image 31: 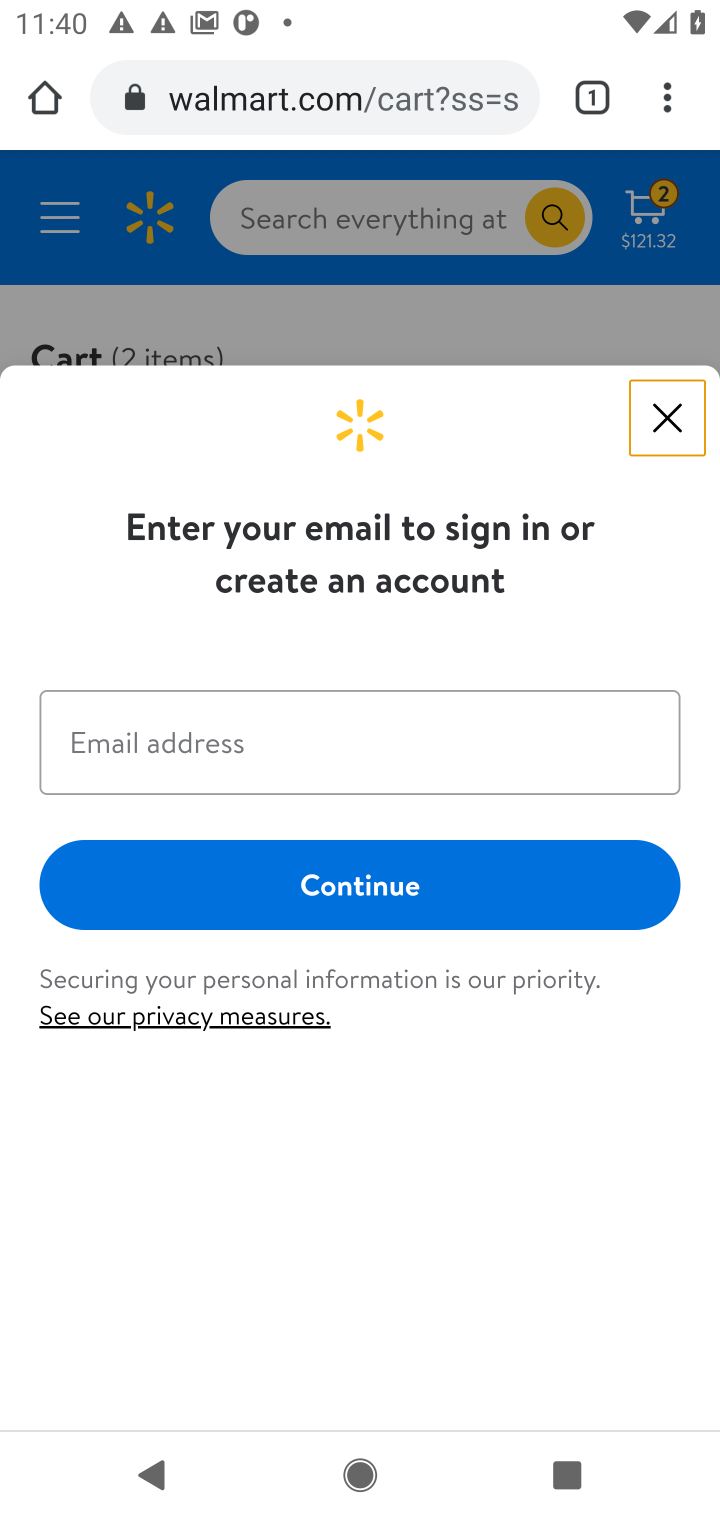
Step 31: task complete